Your task to perform on an android device: Clear all items from cart on walmart. Search for "razer blackwidow" on walmart, select the first entry, add it to the cart, then select checkout. Image 0: 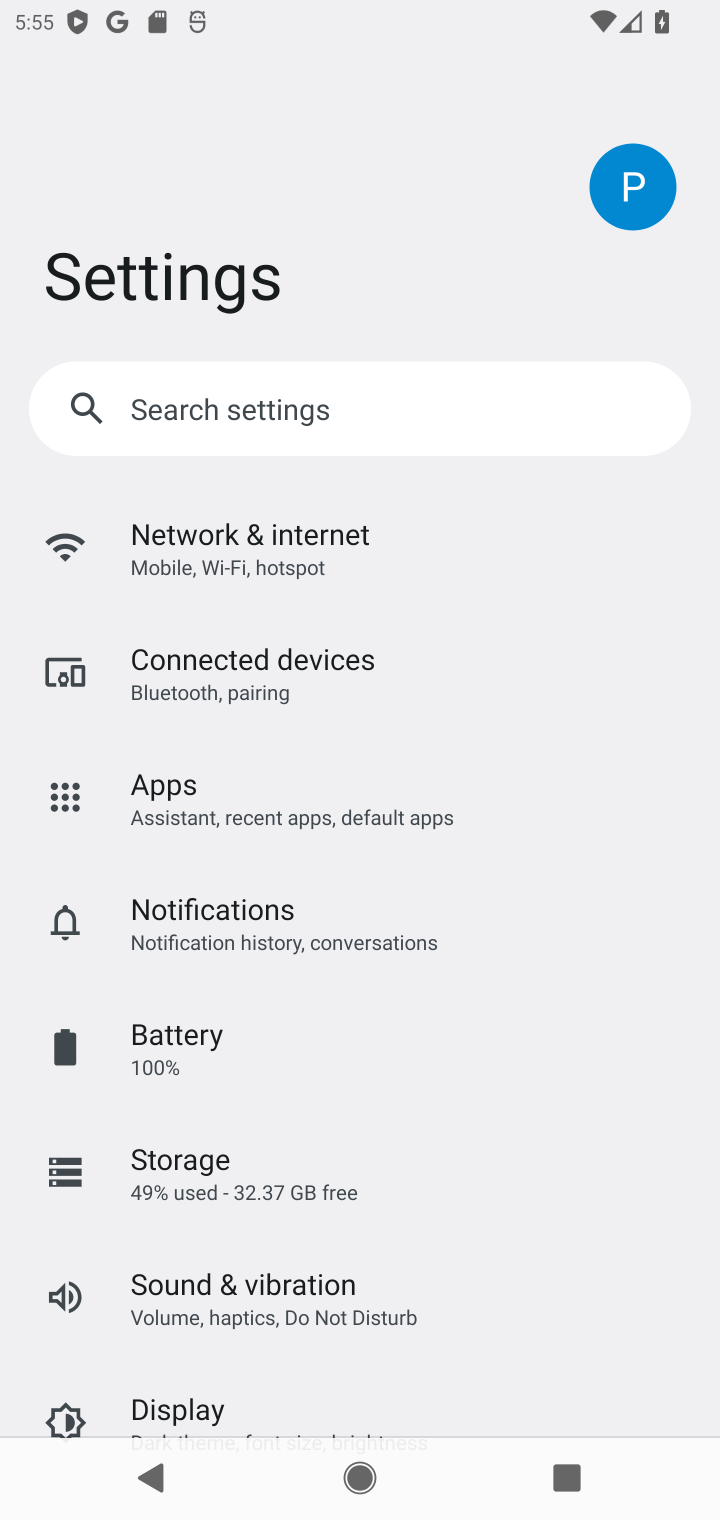
Step 0: press home button
Your task to perform on an android device: Clear all items from cart on walmart. Search for "razer blackwidow" on walmart, select the first entry, add it to the cart, then select checkout. Image 1: 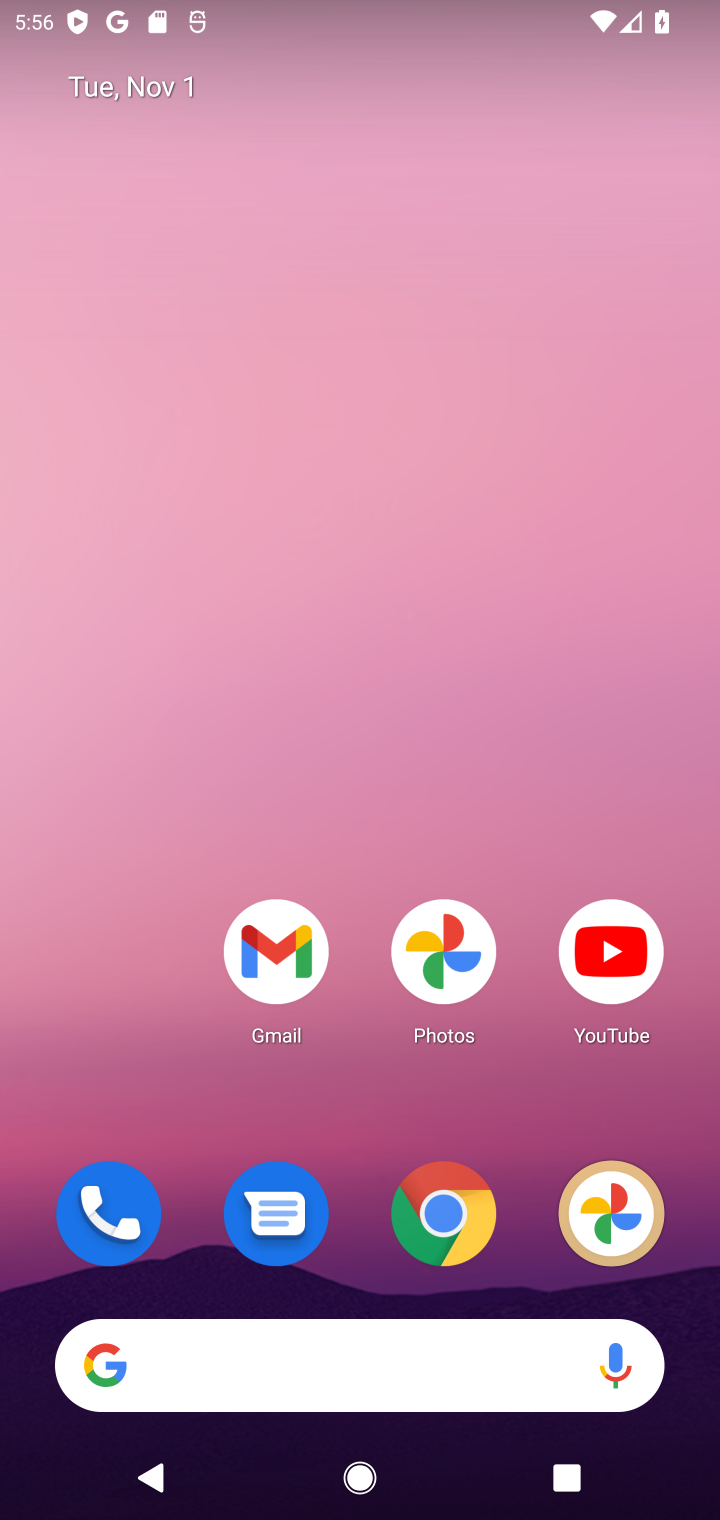
Step 1: click (443, 1227)
Your task to perform on an android device: Clear all items from cart on walmart. Search for "razer blackwidow" on walmart, select the first entry, add it to the cart, then select checkout. Image 2: 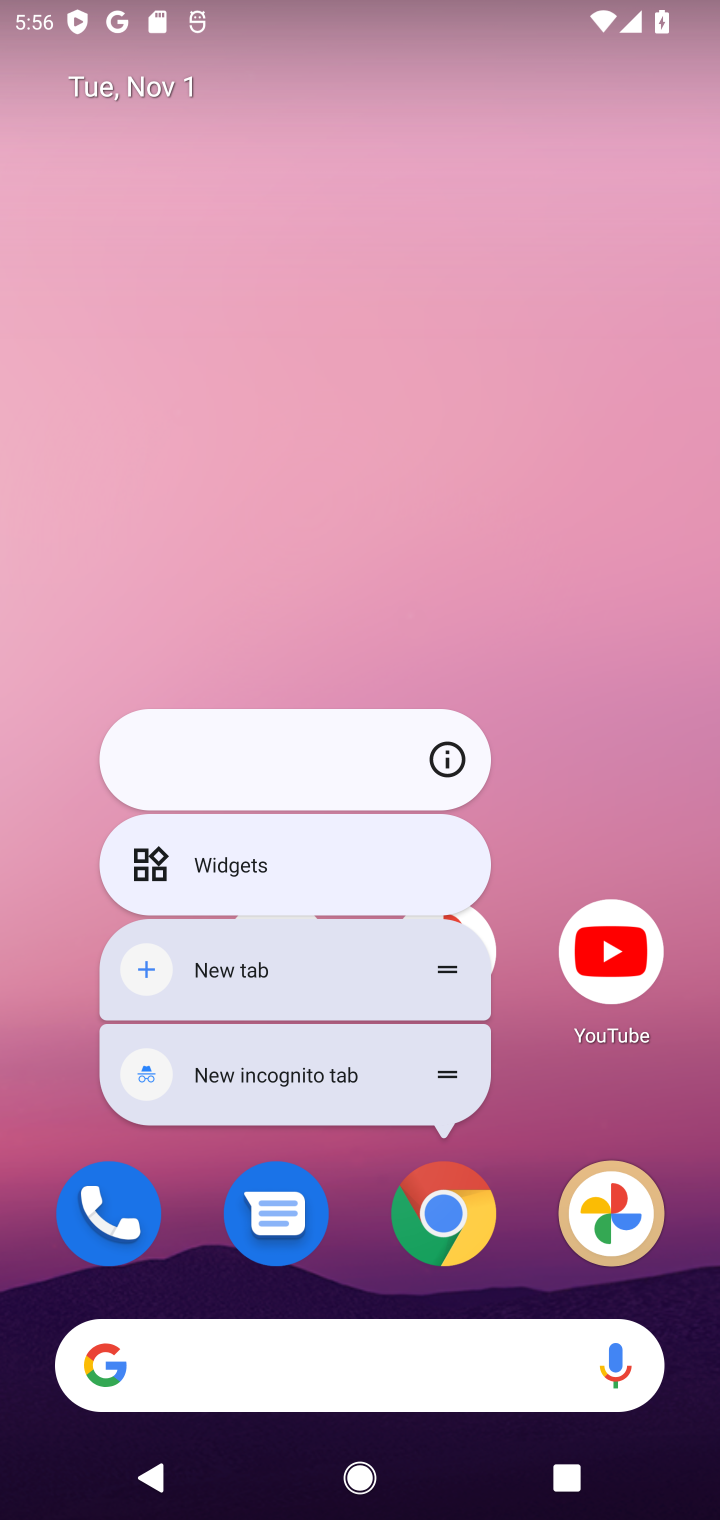
Step 2: click (443, 1235)
Your task to perform on an android device: Clear all items from cart on walmart. Search for "razer blackwidow" on walmart, select the first entry, add it to the cart, then select checkout. Image 3: 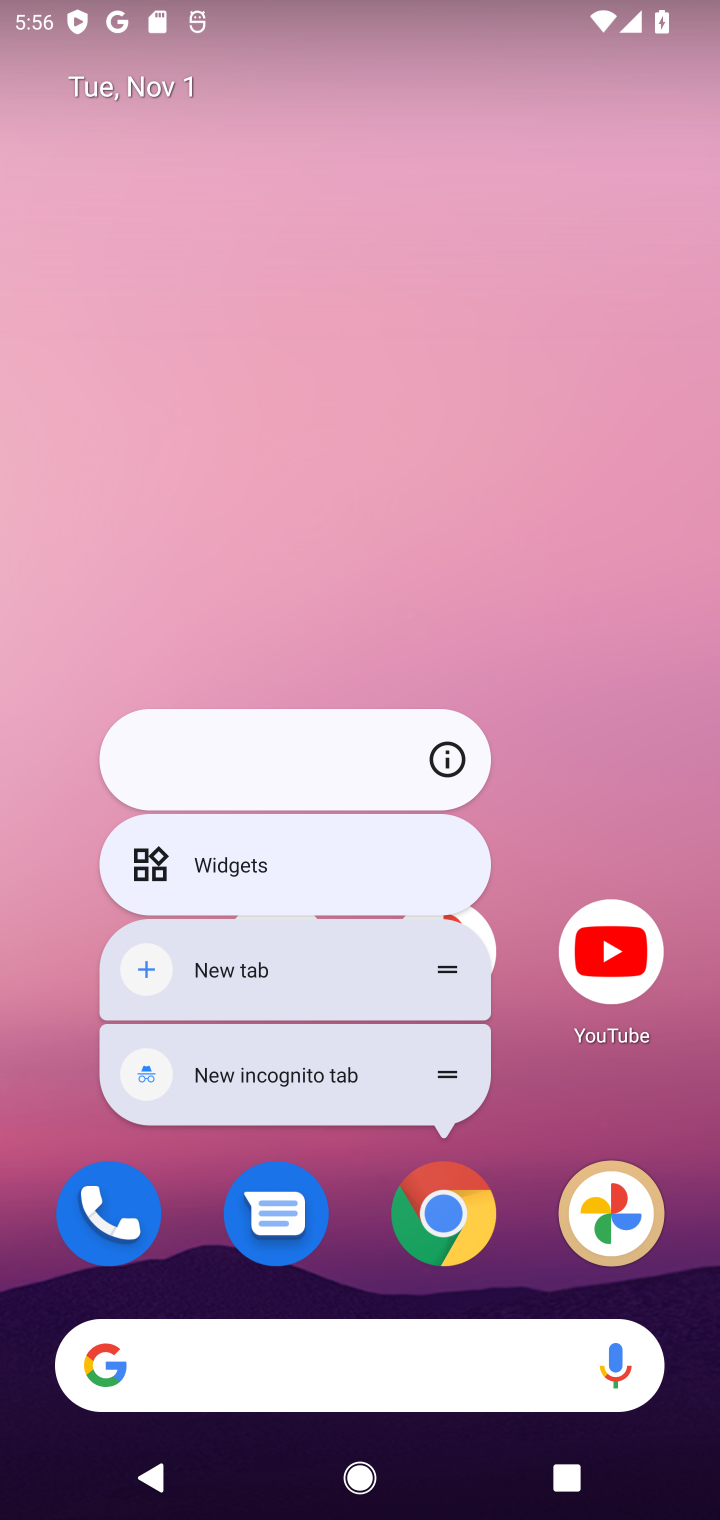
Step 3: click (457, 1220)
Your task to perform on an android device: Clear all items from cart on walmart. Search for "razer blackwidow" on walmart, select the first entry, add it to the cart, then select checkout. Image 4: 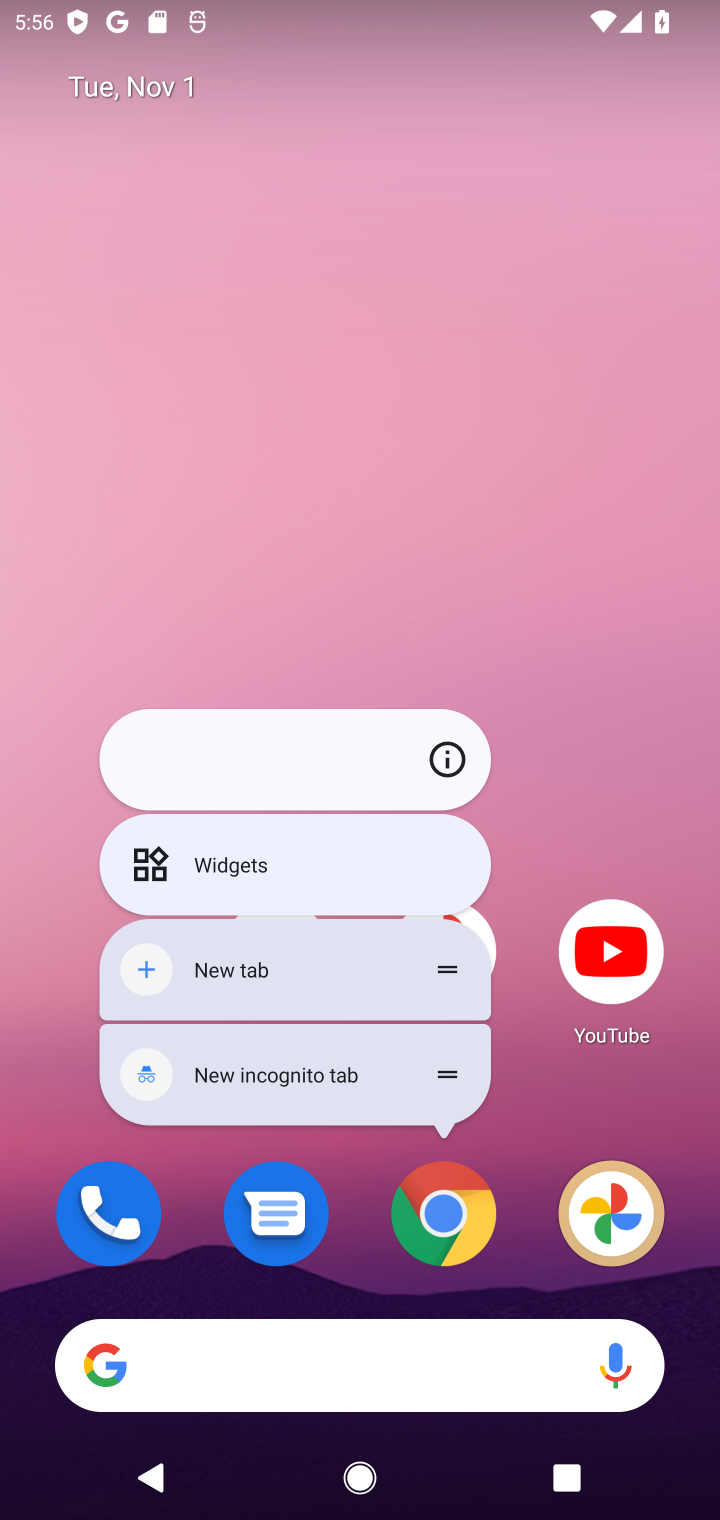
Step 4: click (445, 1211)
Your task to perform on an android device: Clear all items from cart on walmart. Search for "razer blackwidow" on walmart, select the first entry, add it to the cart, then select checkout. Image 5: 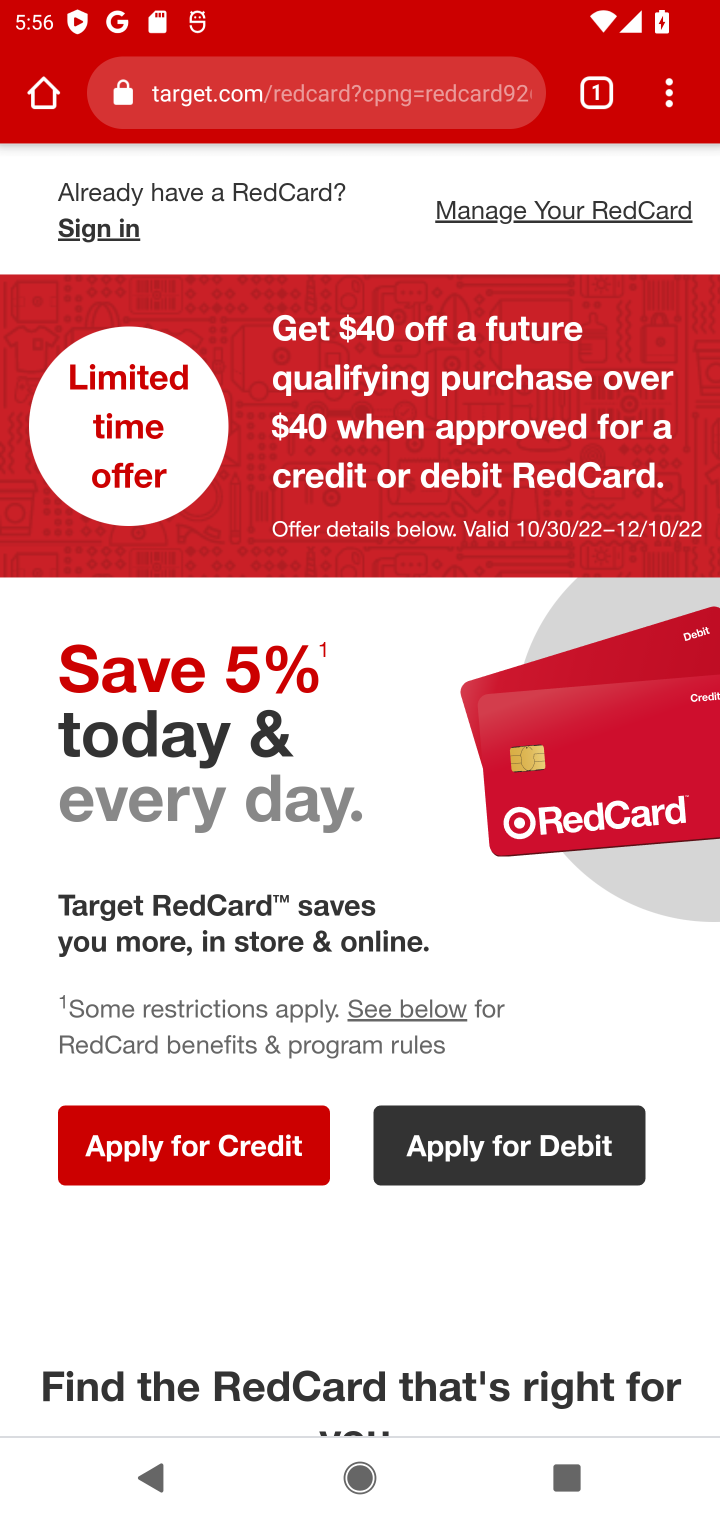
Step 5: click (219, 92)
Your task to perform on an android device: Clear all items from cart on walmart. Search for "razer blackwidow" on walmart, select the first entry, add it to the cart, then select checkout. Image 6: 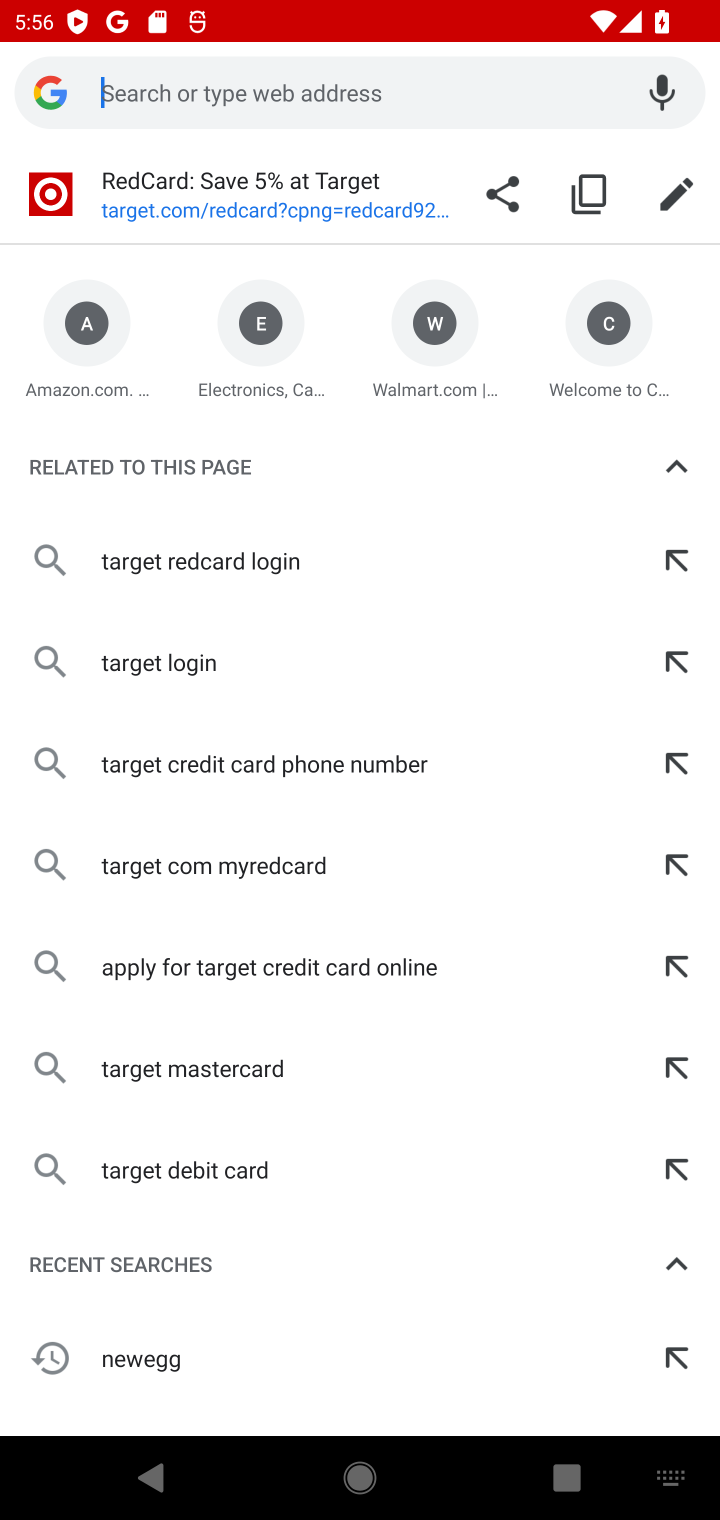
Step 6: type " walmart"
Your task to perform on an android device: Clear all items from cart on walmart. Search for "razer blackwidow" on walmart, select the first entry, add it to the cart, then select checkout. Image 7: 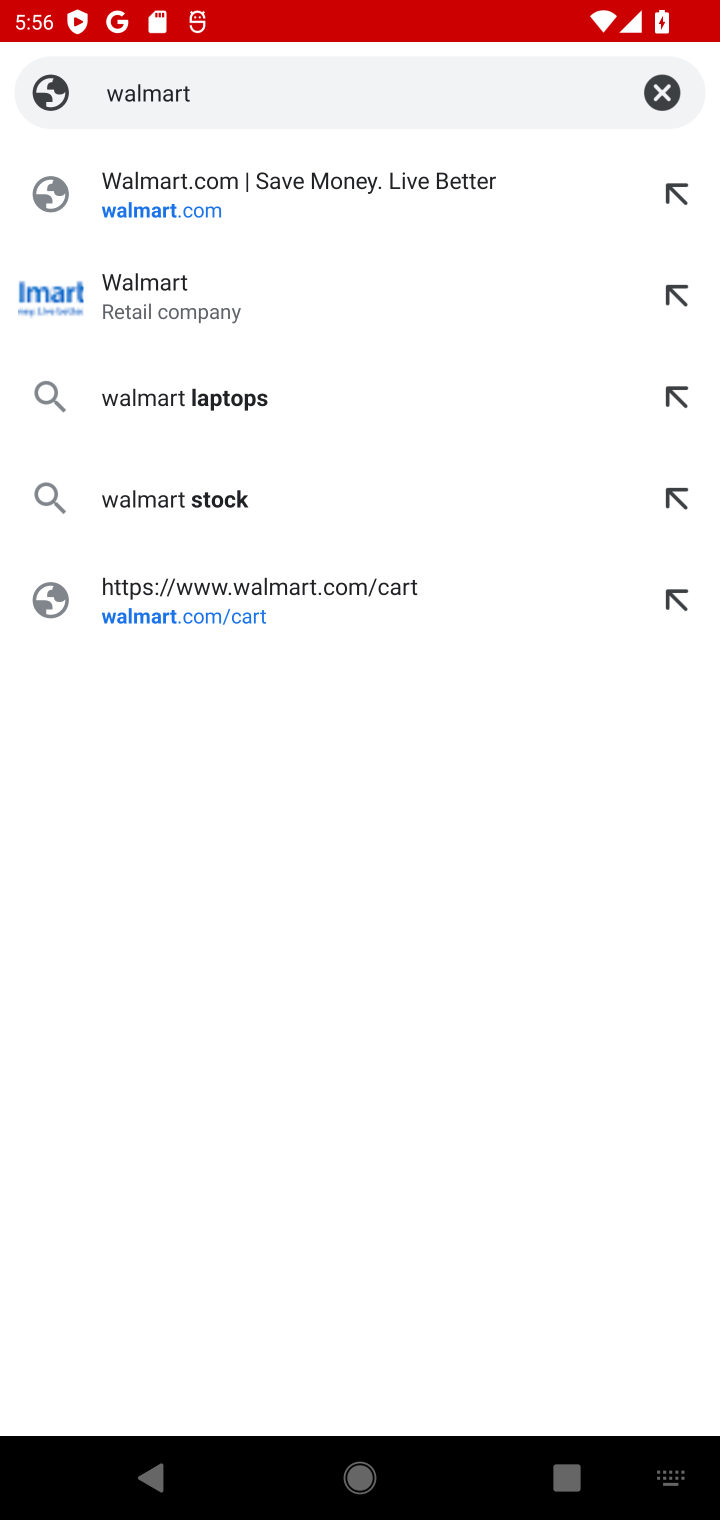
Step 7: click (179, 206)
Your task to perform on an android device: Clear all items from cart on walmart. Search for "razer blackwidow" on walmart, select the first entry, add it to the cart, then select checkout. Image 8: 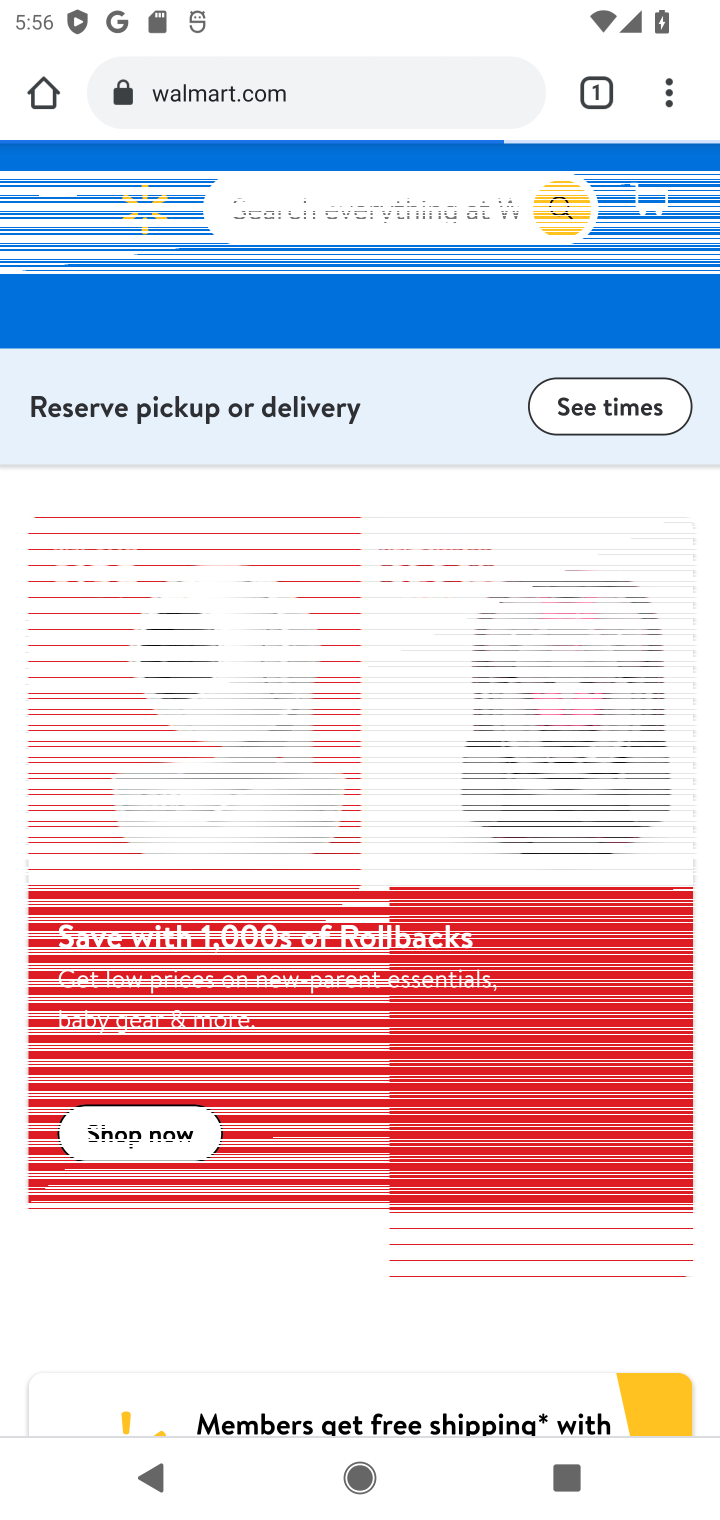
Step 8: click (667, 182)
Your task to perform on an android device: Clear all items from cart on walmart. Search for "razer blackwidow" on walmart, select the first entry, add it to the cart, then select checkout. Image 9: 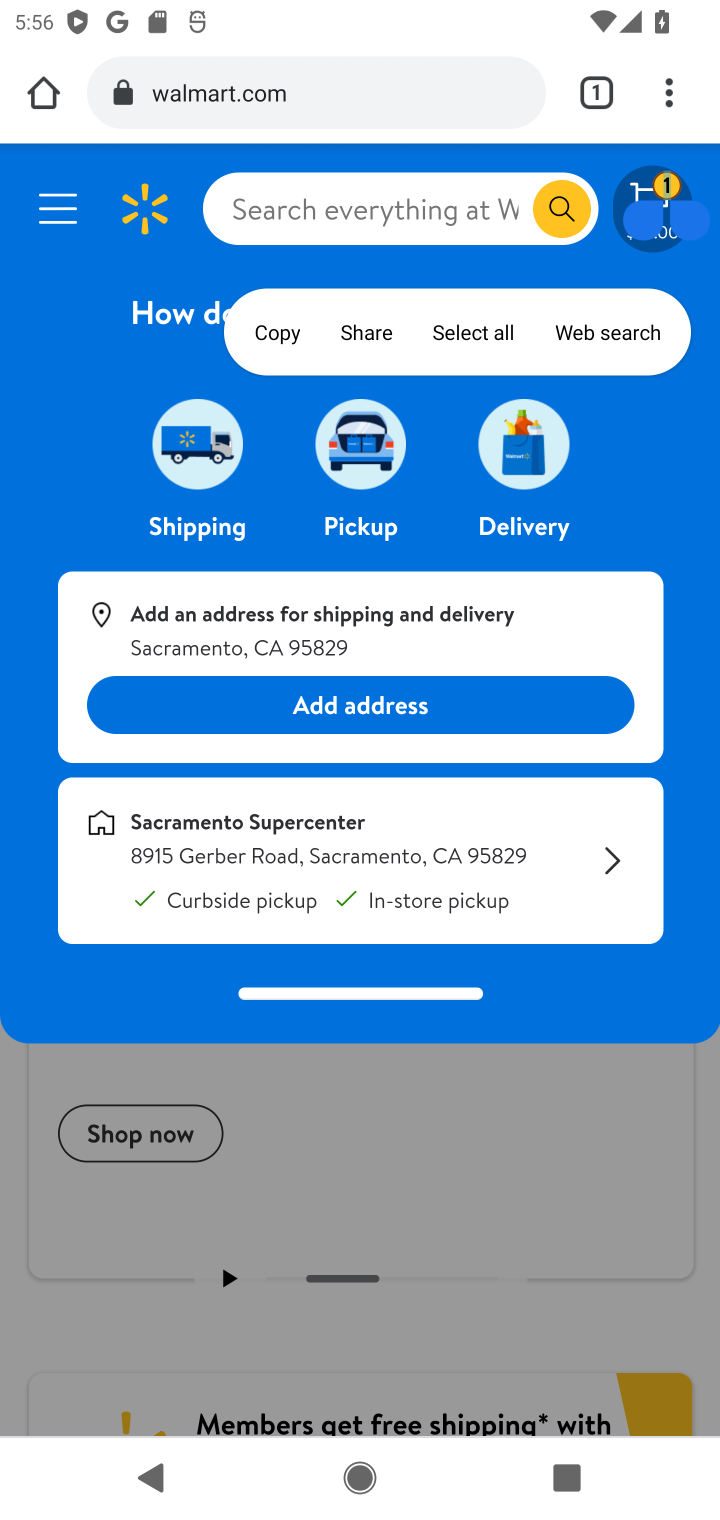
Step 9: click (635, 211)
Your task to perform on an android device: Clear all items from cart on walmart. Search for "razer blackwidow" on walmart, select the first entry, add it to the cart, then select checkout. Image 10: 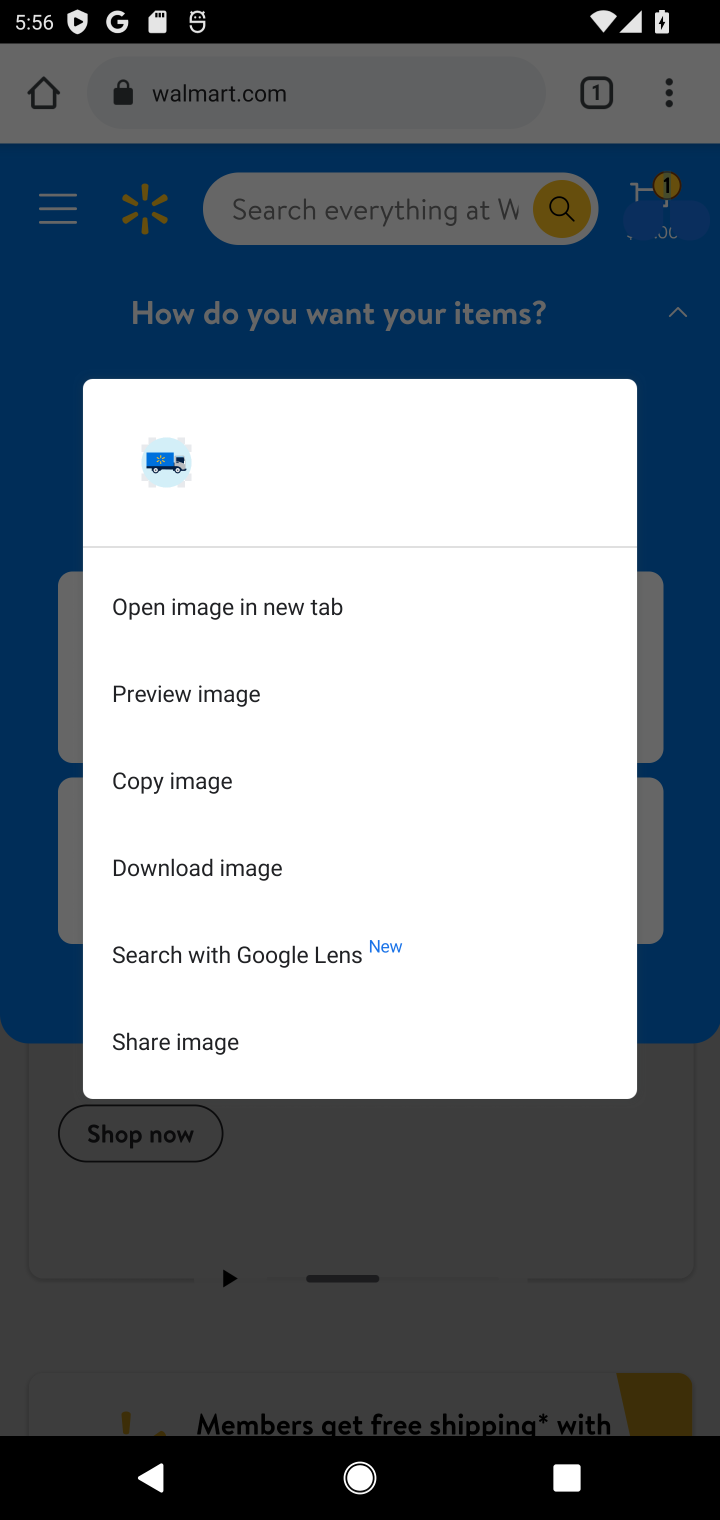
Step 10: click (641, 187)
Your task to perform on an android device: Clear all items from cart on walmart. Search for "razer blackwidow" on walmart, select the first entry, add it to the cart, then select checkout. Image 11: 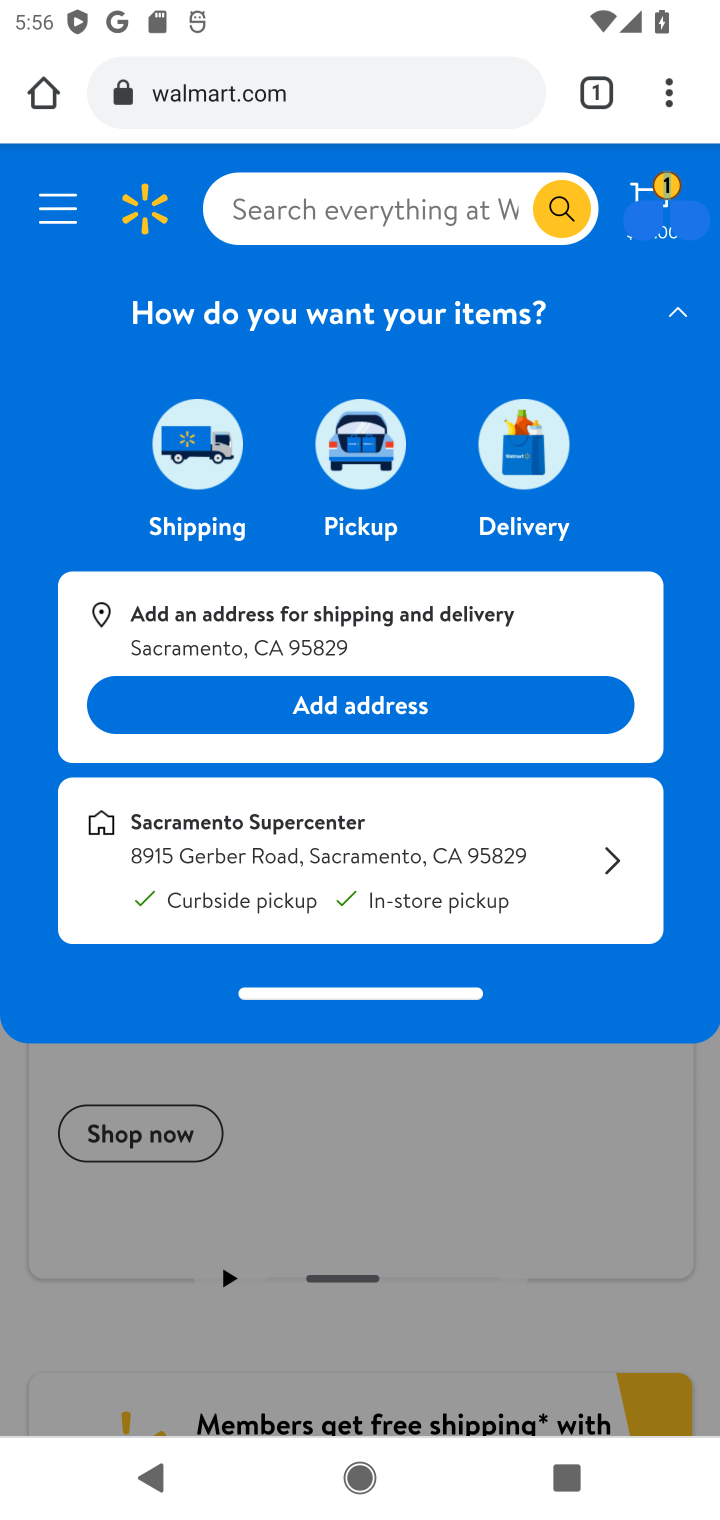
Step 11: click (647, 203)
Your task to perform on an android device: Clear all items from cart on walmart. Search for "razer blackwidow" on walmart, select the first entry, add it to the cart, then select checkout. Image 12: 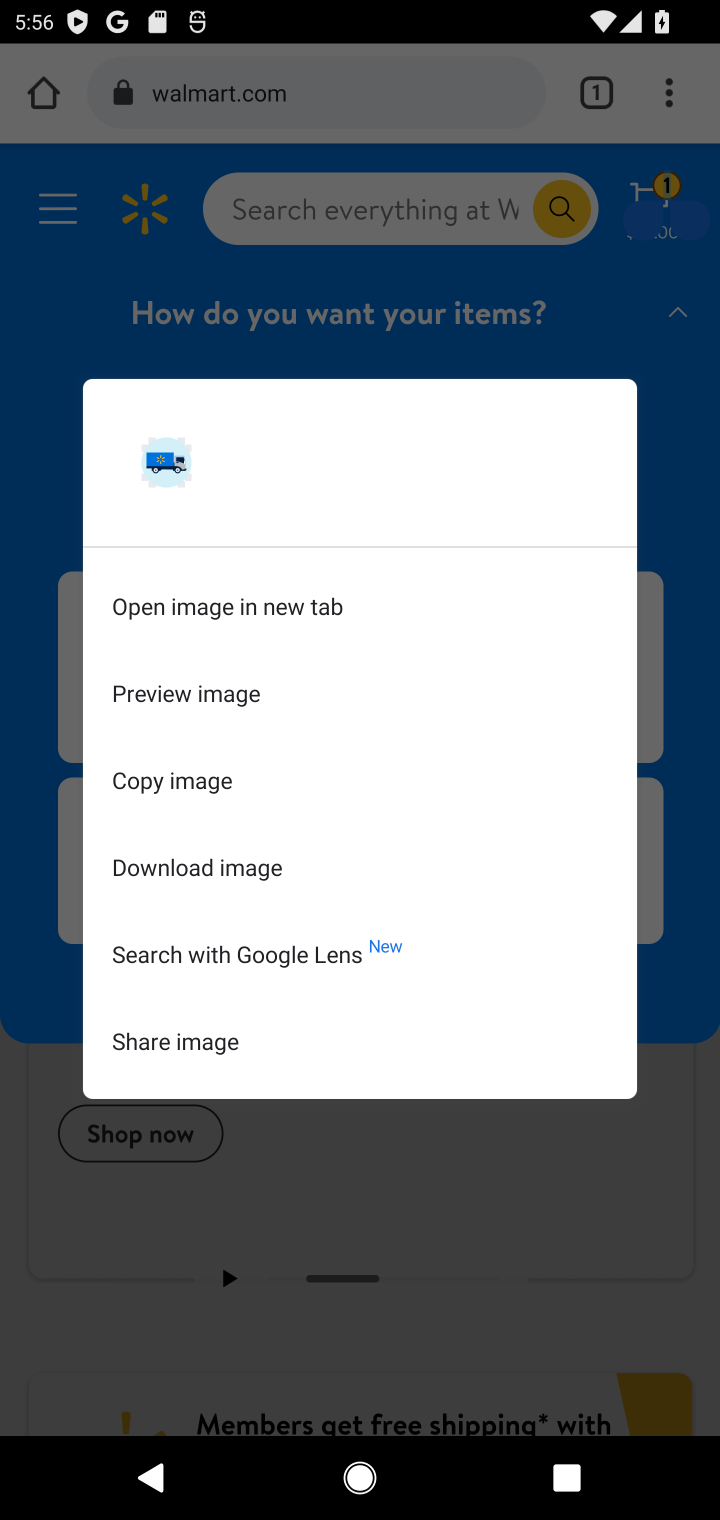
Step 12: click (641, 241)
Your task to perform on an android device: Clear all items from cart on walmart. Search for "razer blackwidow" on walmart, select the first entry, add it to the cart, then select checkout. Image 13: 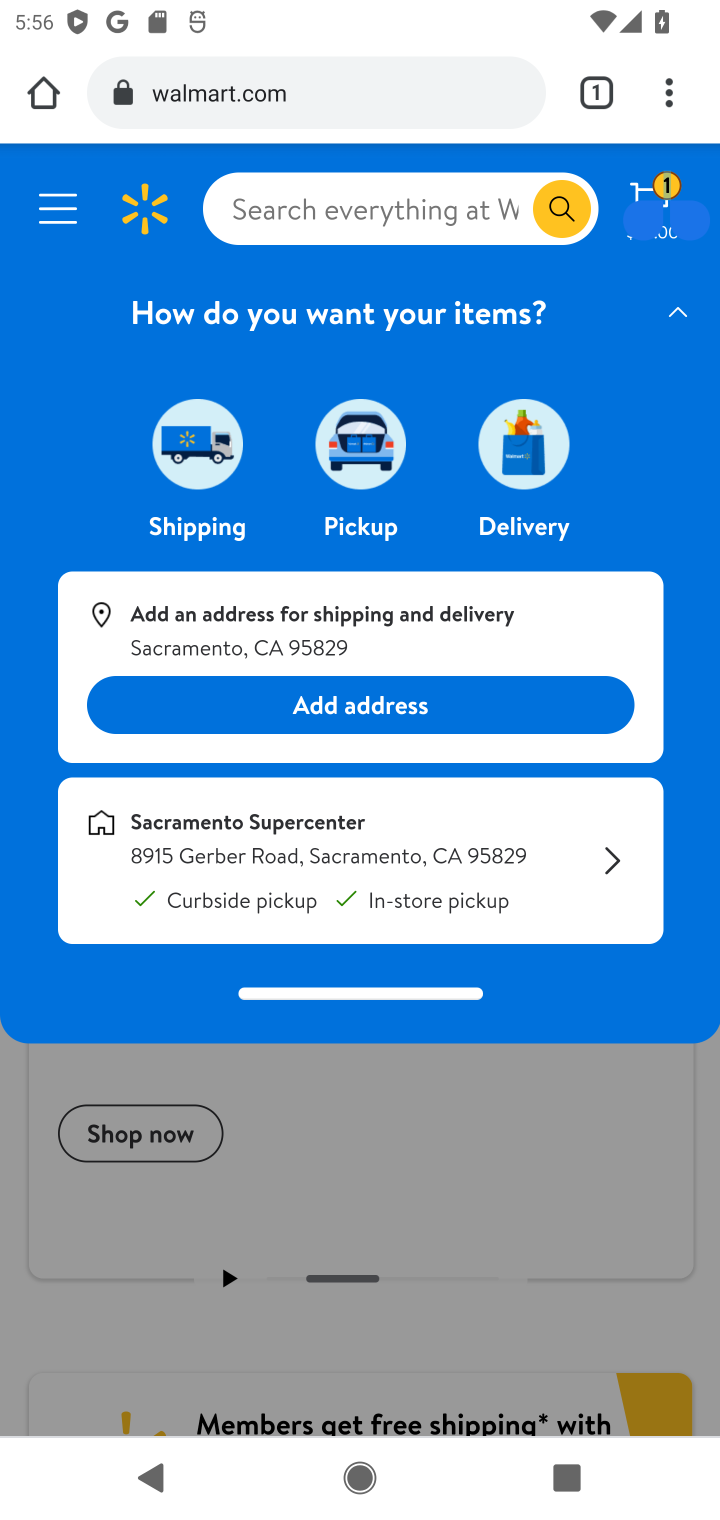
Step 13: click (516, 1274)
Your task to perform on an android device: Clear all items from cart on walmart. Search for "razer blackwidow" on walmart, select the first entry, add it to the cart, then select checkout. Image 14: 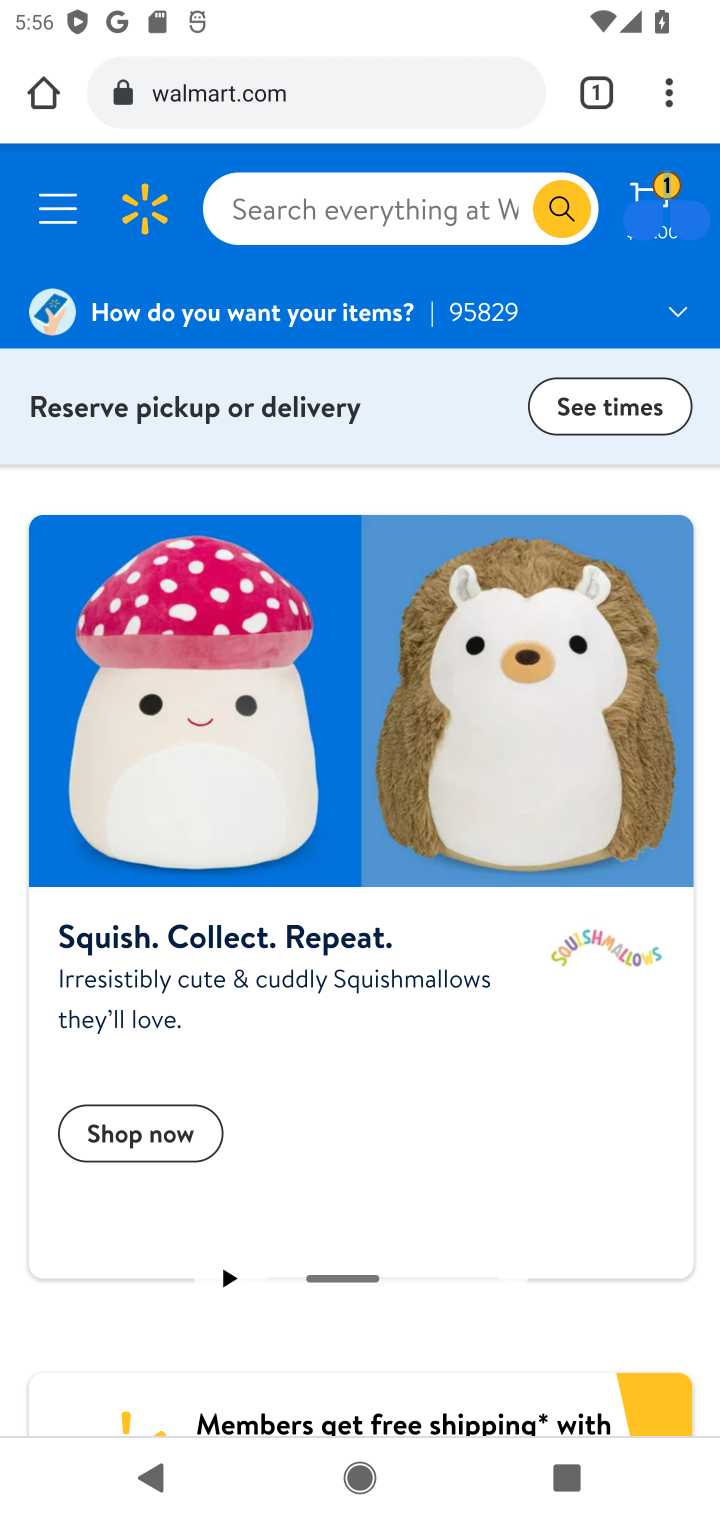
Step 14: click (659, 181)
Your task to perform on an android device: Clear all items from cart on walmart. Search for "razer blackwidow" on walmart, select the first entry, add it to the cart, then select checkout. Image 15: 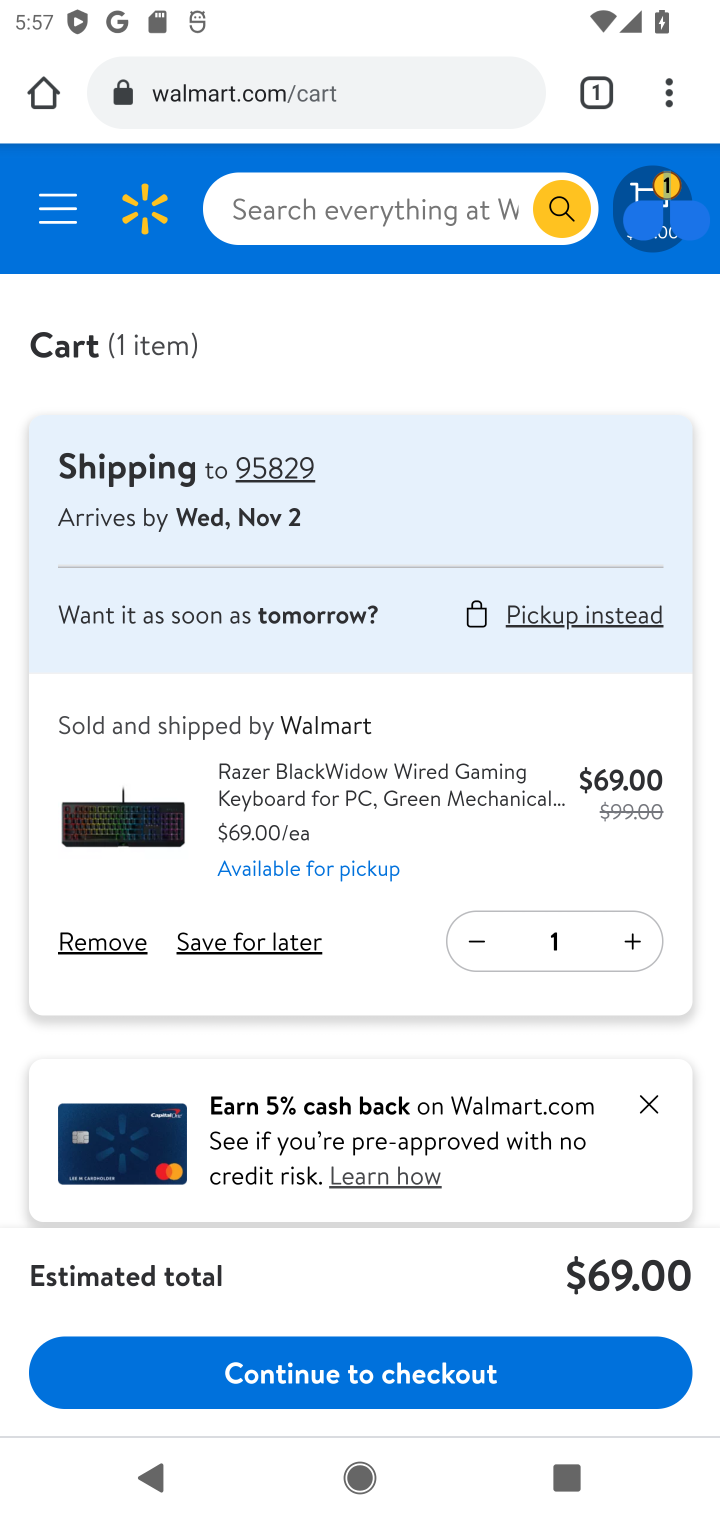
Step 15: click (469, 932)
Your task to perform on an android device: Clear all items from cart on walmart. Search for "razer blackwidow" on walmart, select the first entry, add it to the cart, then select checkout. Image 16: 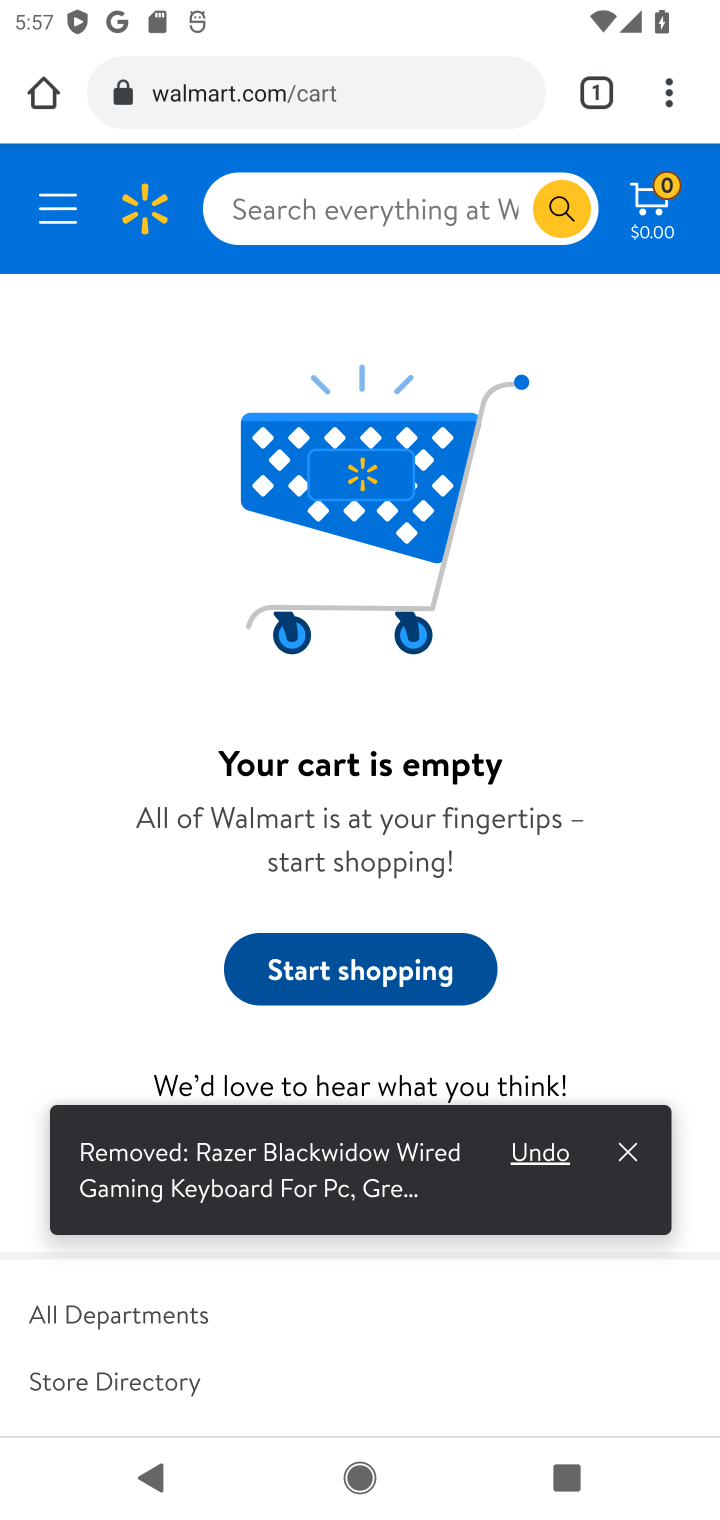
Step 16: click (616, 1159)
Your task to perform on an android device: Clear all items from cart on walmart. Search for "razer blackwidow" on walmart, select the first entry, add it to the cart, then select checkout. Image 17: 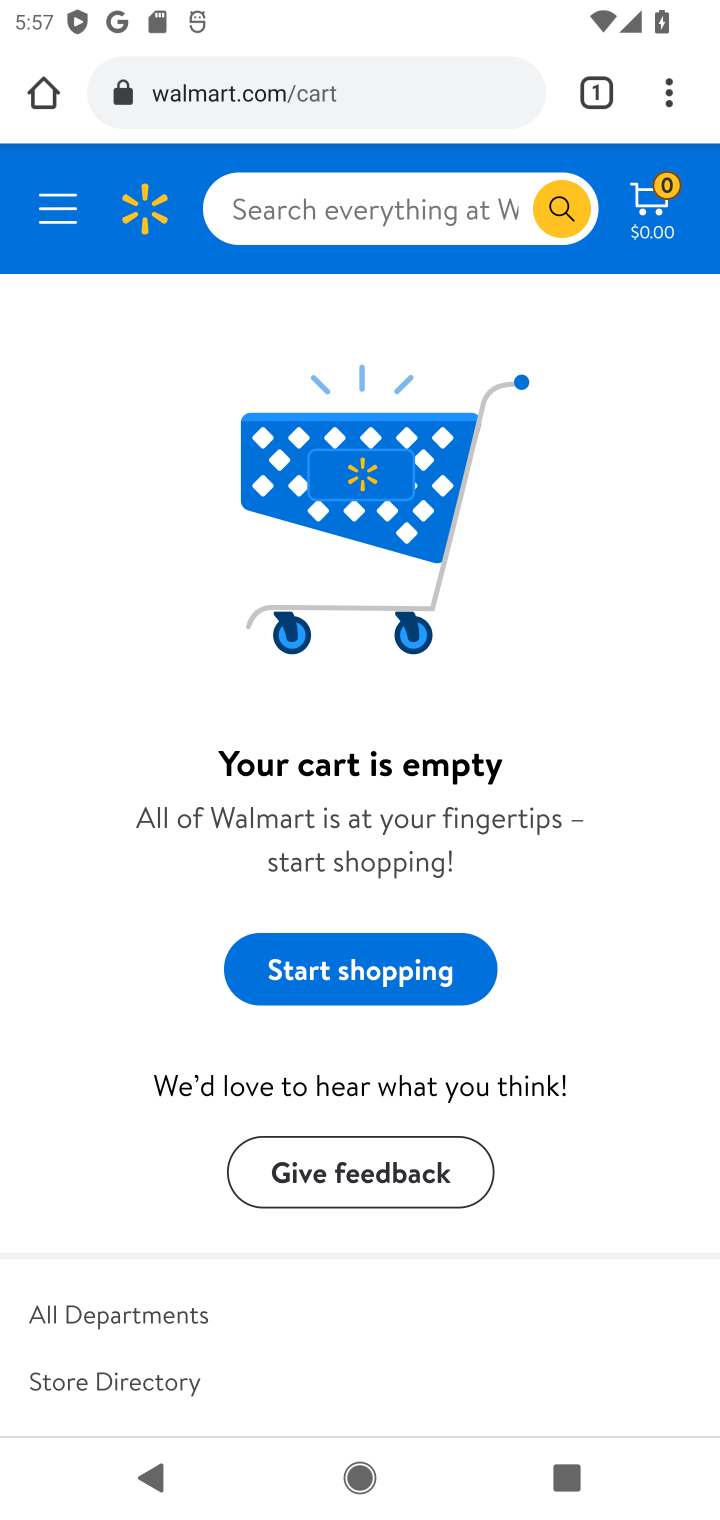
Step 17: click (358, 220)
Your task to perform on an android device: Clear all items from cart on walmart. Search for "razer blackwidow" on walmart, select the first entry, add it to the cart, then select checkout. Image 18: 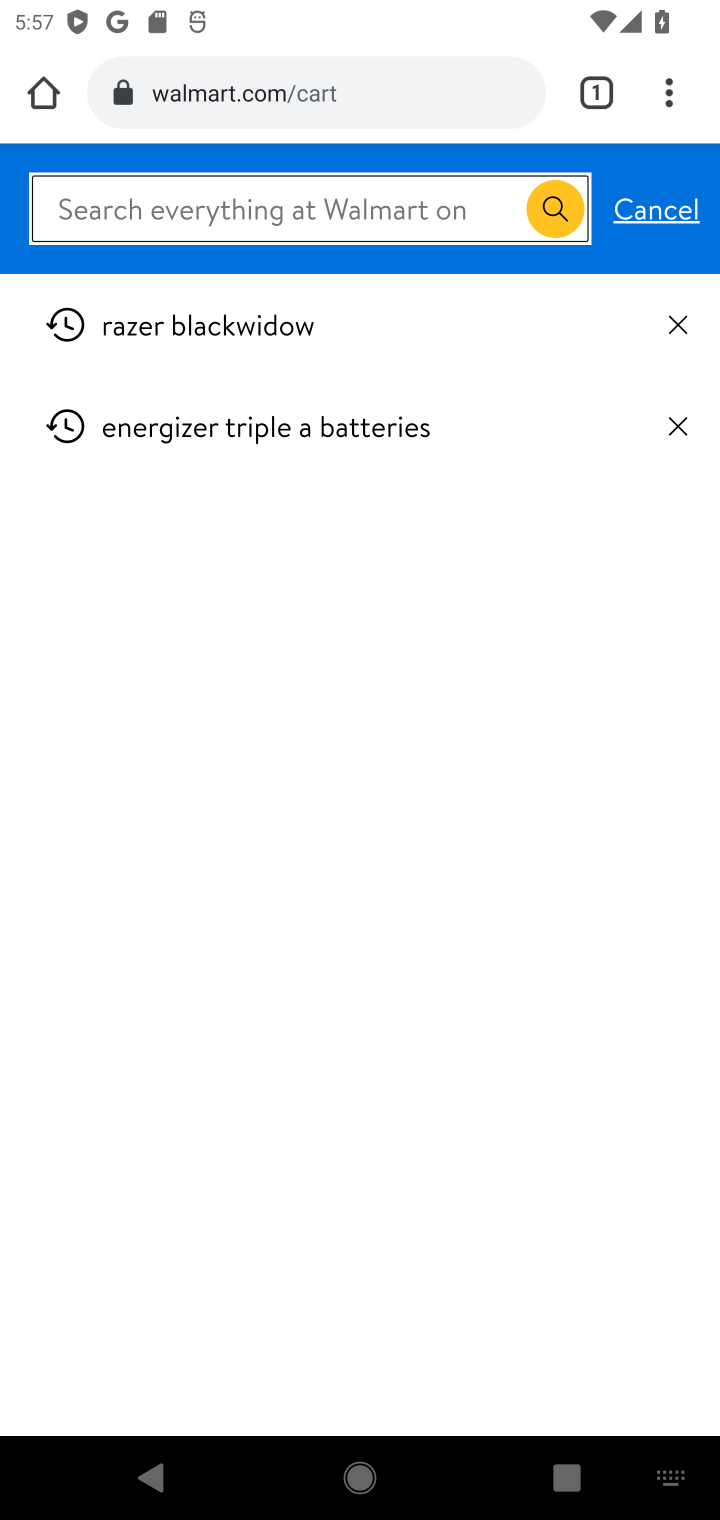
Step 18: type "razer blackwidow"
Your task to perform on an android device: Clear all items from cart on walmart. Search for "razer blackwidow" on walmart, select the first entry, add it to the cart, then select checkout. Image 19: 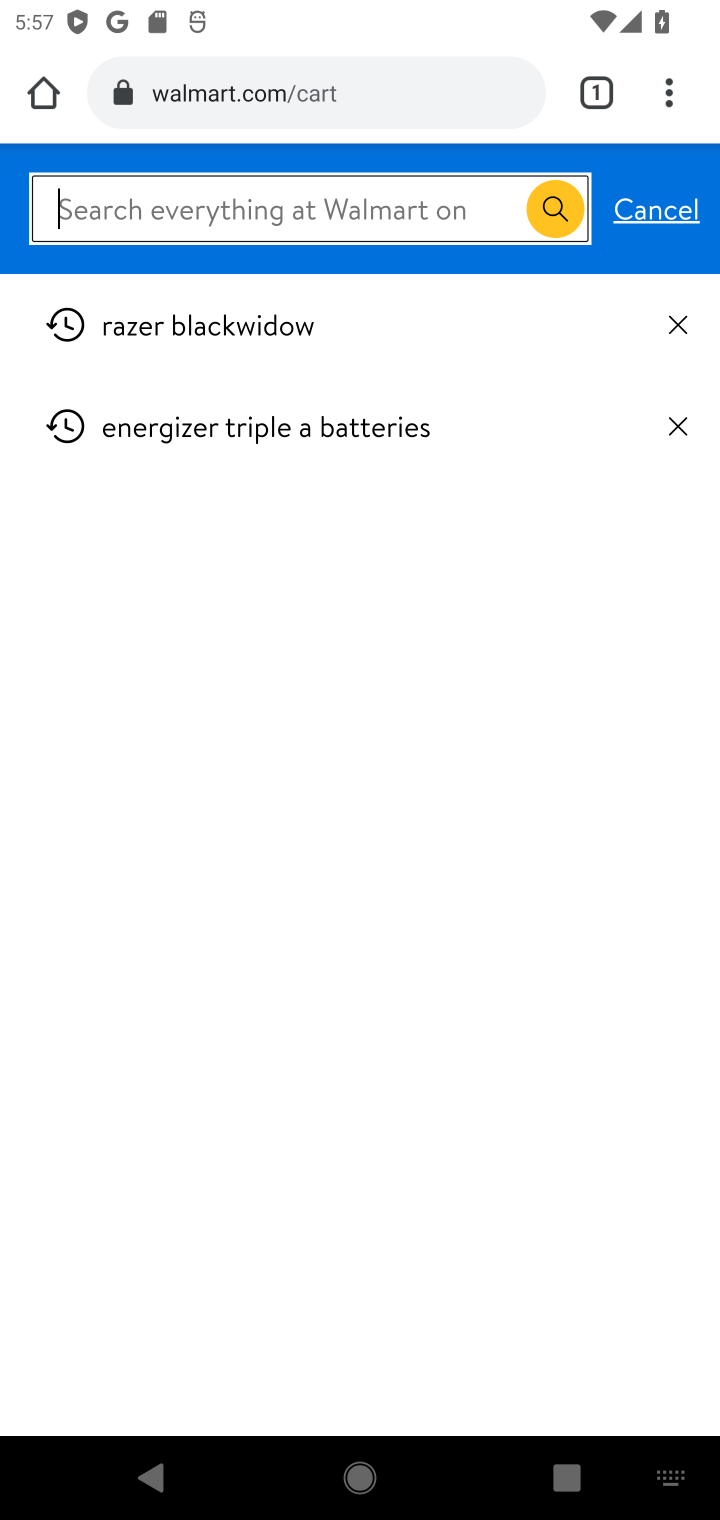
Step 19: type ""
Your task to perform on an android device: Clear all items from cart on walmart. Search for "razer blackwidow" on walmart, select the first entry, add it to the cart, then select checkout. Image 20: 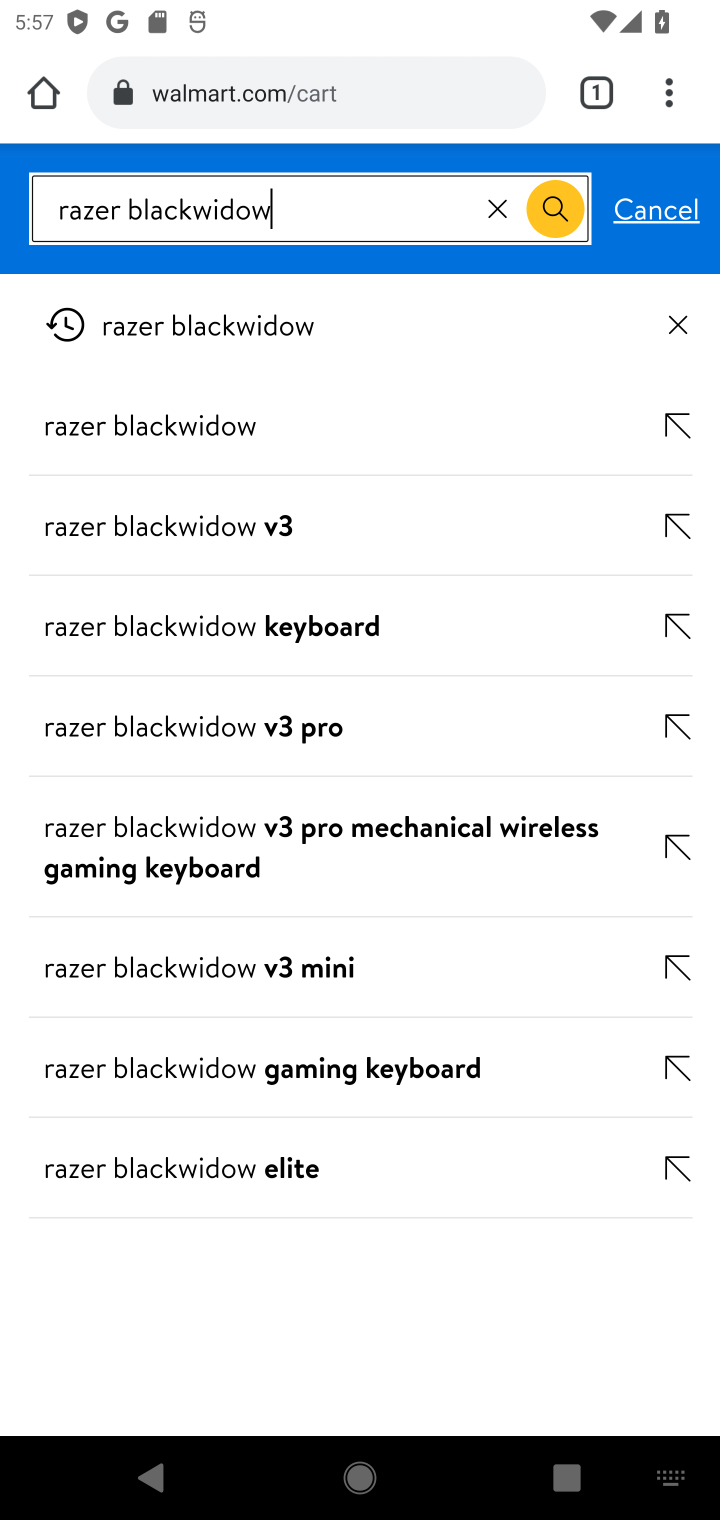
Step 20: click (204, 374)
Your task to perform on an android device: Clear all items from cart on walmart. Search for "razer blackwidow" on walmart, select the first entry, add it to the cart, then select checkout. Image 21: 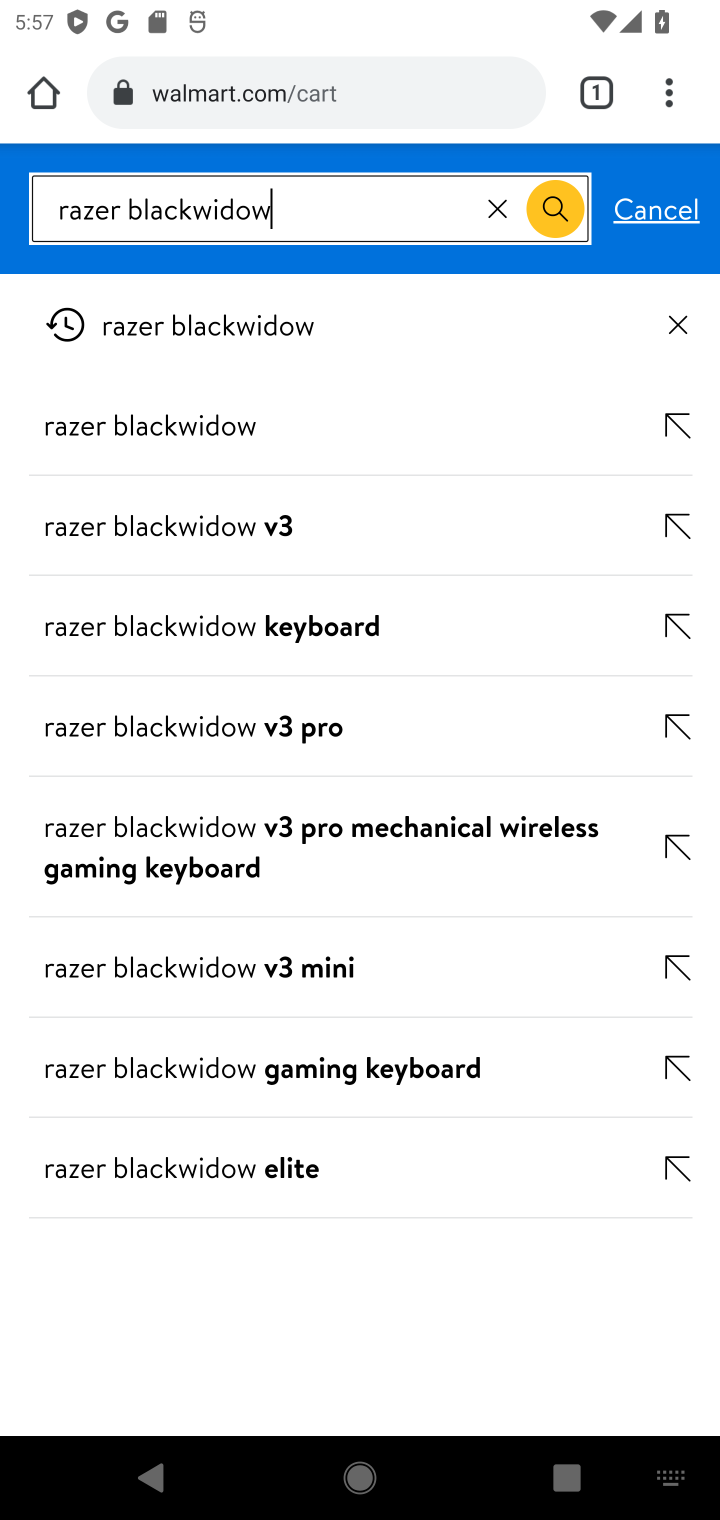
Step 21: click (206, 348)
Your task to perform on an android device: Clear all items from cart on walmart. Search for "razer blackwidow" on walmart, select the first entry, add it to the cart, then select checkout. Image 22: 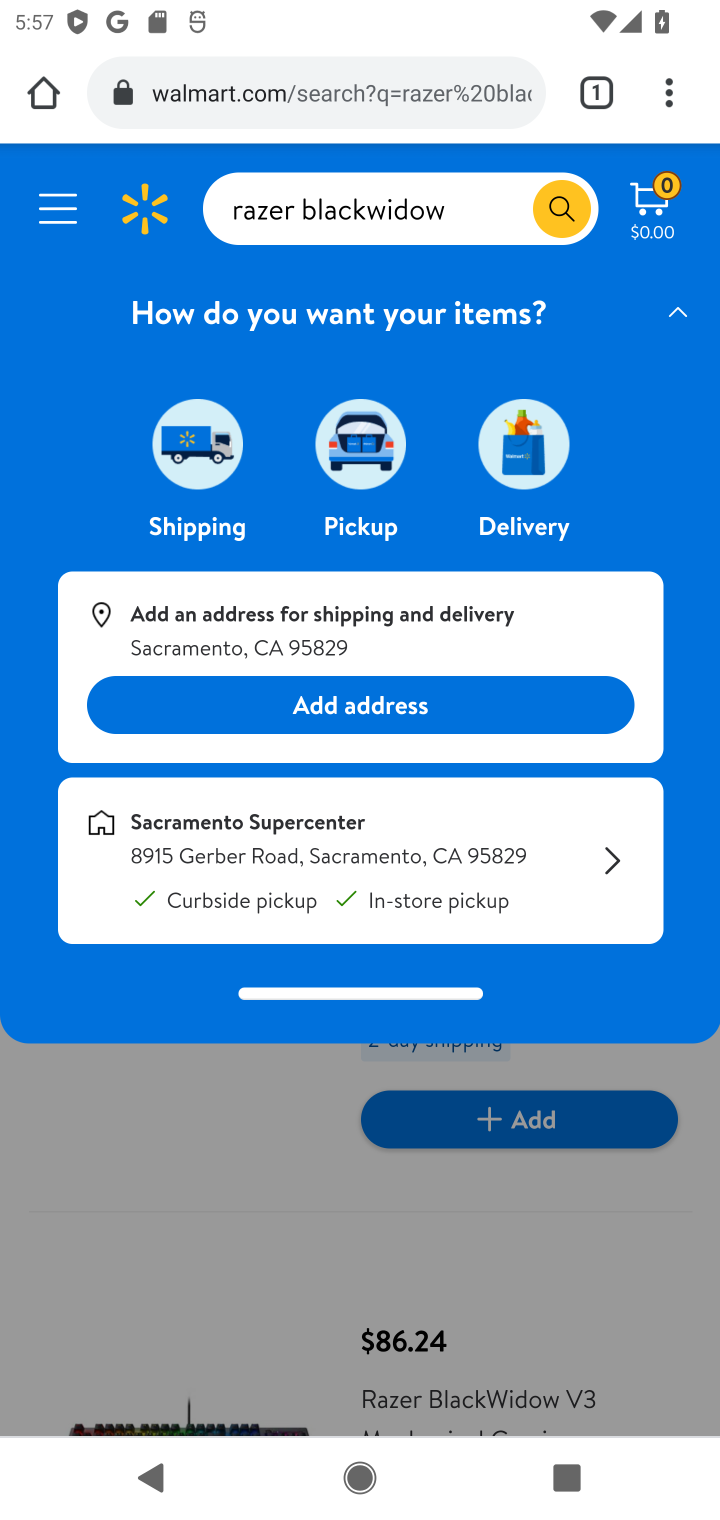
Step 22: click (570, 215)
Your task to perform on an android device: Clear all items from cart on walmart. Search for "razer blackwidow" on walmart, select the first entry, add it to the cart, then select checkout. Image 23: 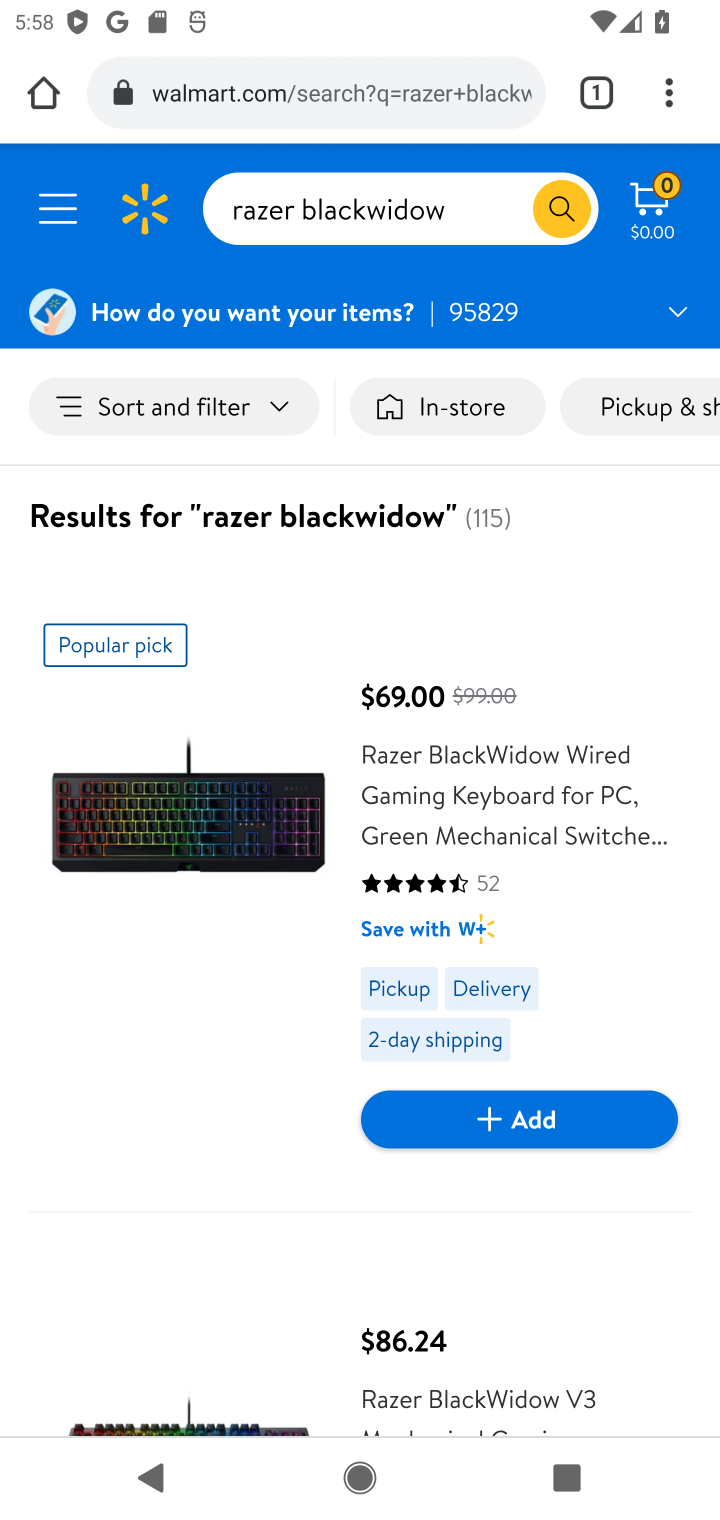
Step 23: click (436, 789)
Your task to perform on an android device: Clear all items from cart on walmart. Search for "razer blackwidow" on walmart, select the first entry, add it to the cart, then select checkout. Image 24: 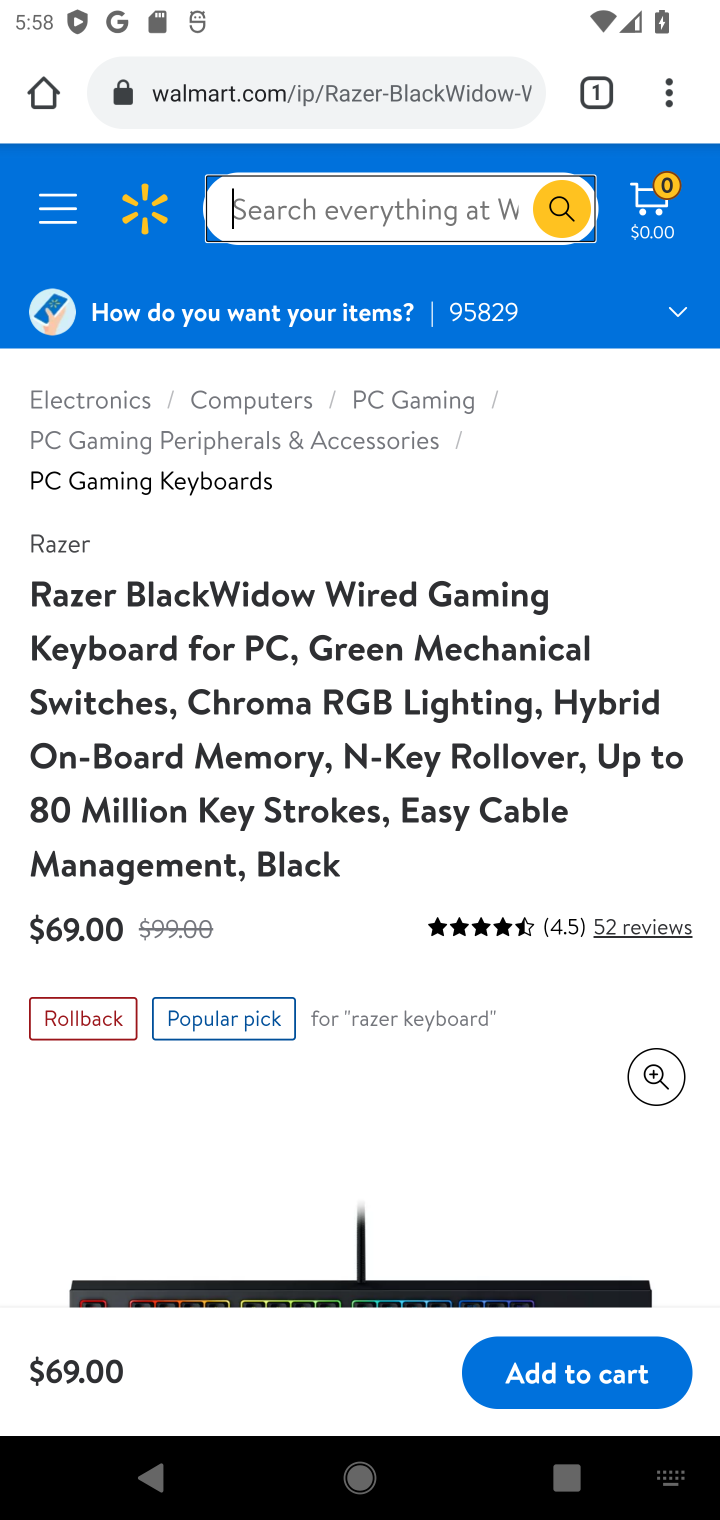
Step 24: click (436, 789)
Your task to perform on an android device: Clear all items from cart on walmart. Search for "razer blackwidow" on walmart, select the first entry, add it to the cart, then select checkout. Image 25: 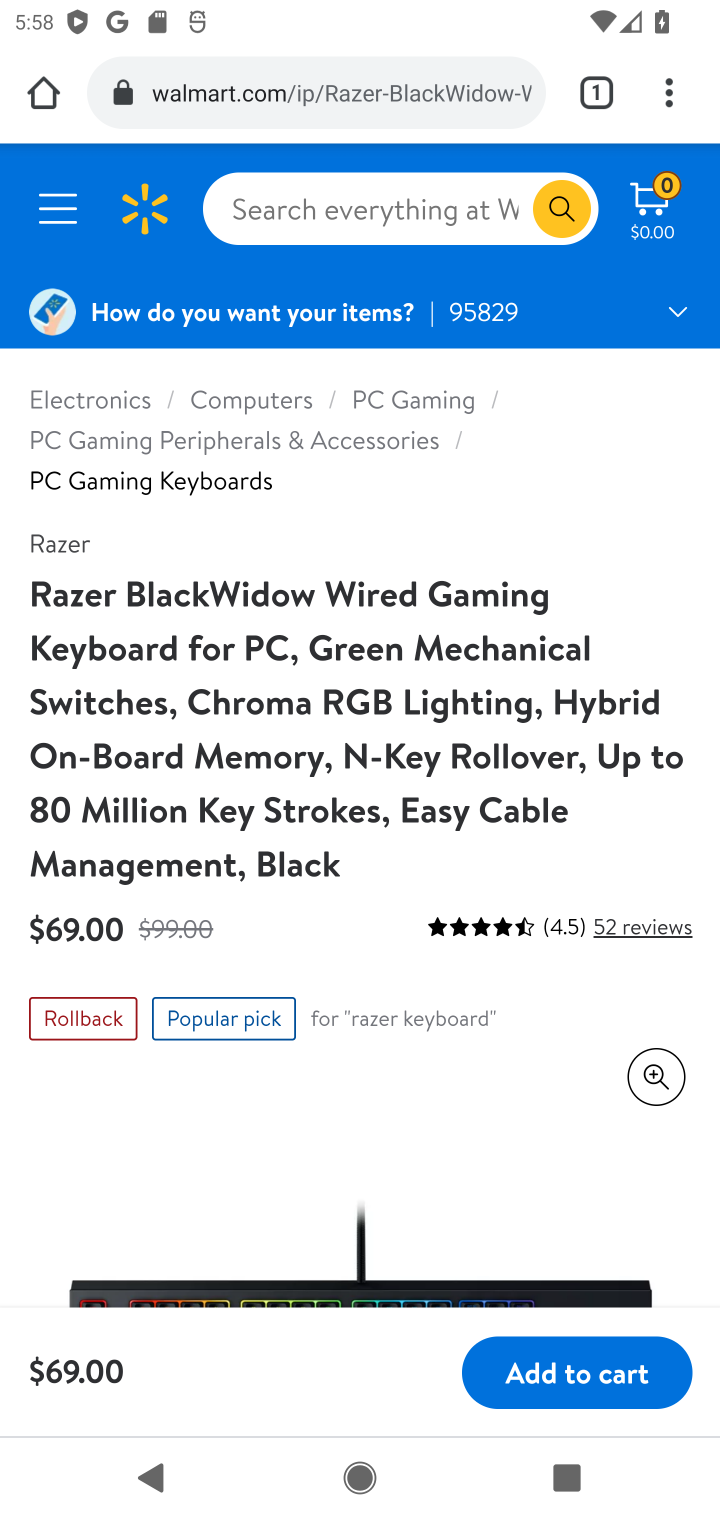
Step 25: drag from (405, 984) to (473, 389)
Your task to perform on an android device: Clear all items from cart on walmart. Search for "razer blackwidow" on walmart, select the first entry, add it to the cart, then select checkout. Image 26: 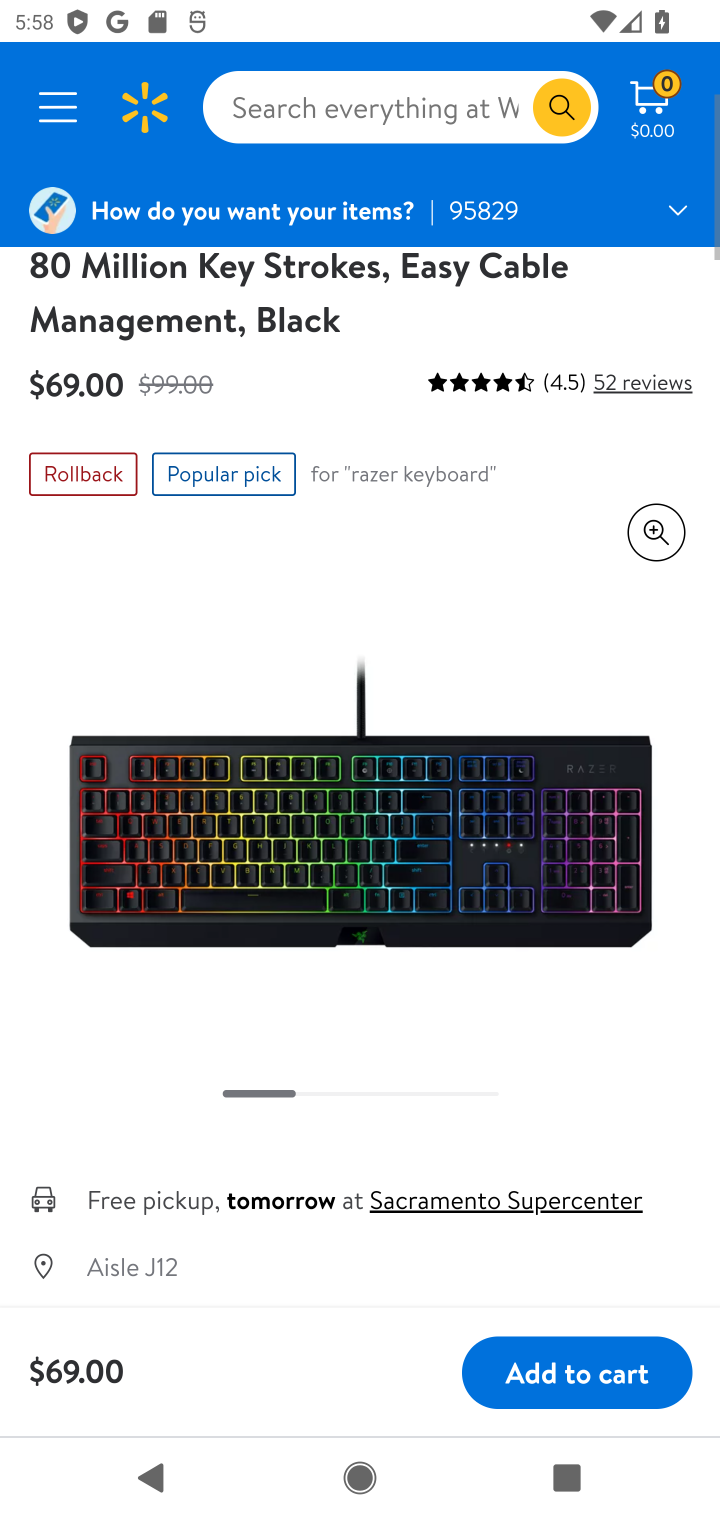
Step 26: drag from (470, 791) to (471, 467)
Your task to perform on an android device: Clear all items from cart on walmart. Search for "razer blackwidow" on walmart, select the first entry, add it to the cart, then select checkout. Image 27: 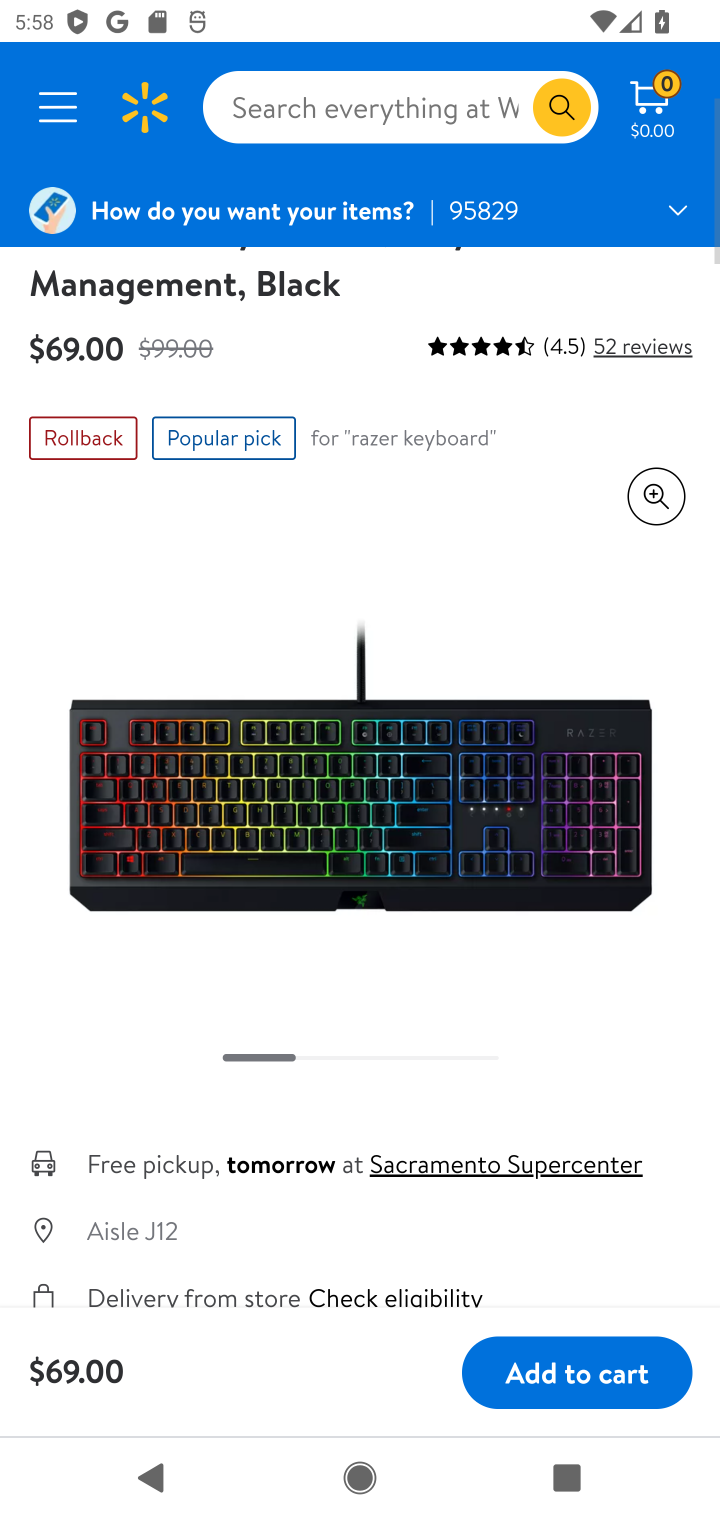
Step 27: drag from (436, 846) to (459, 425)
Your task to perform on an android device: Clear all items from cart on walmart. Search for "razer blackwidow" on walmart, select the first entry, add it to the cart, then select checkout. Image 28: 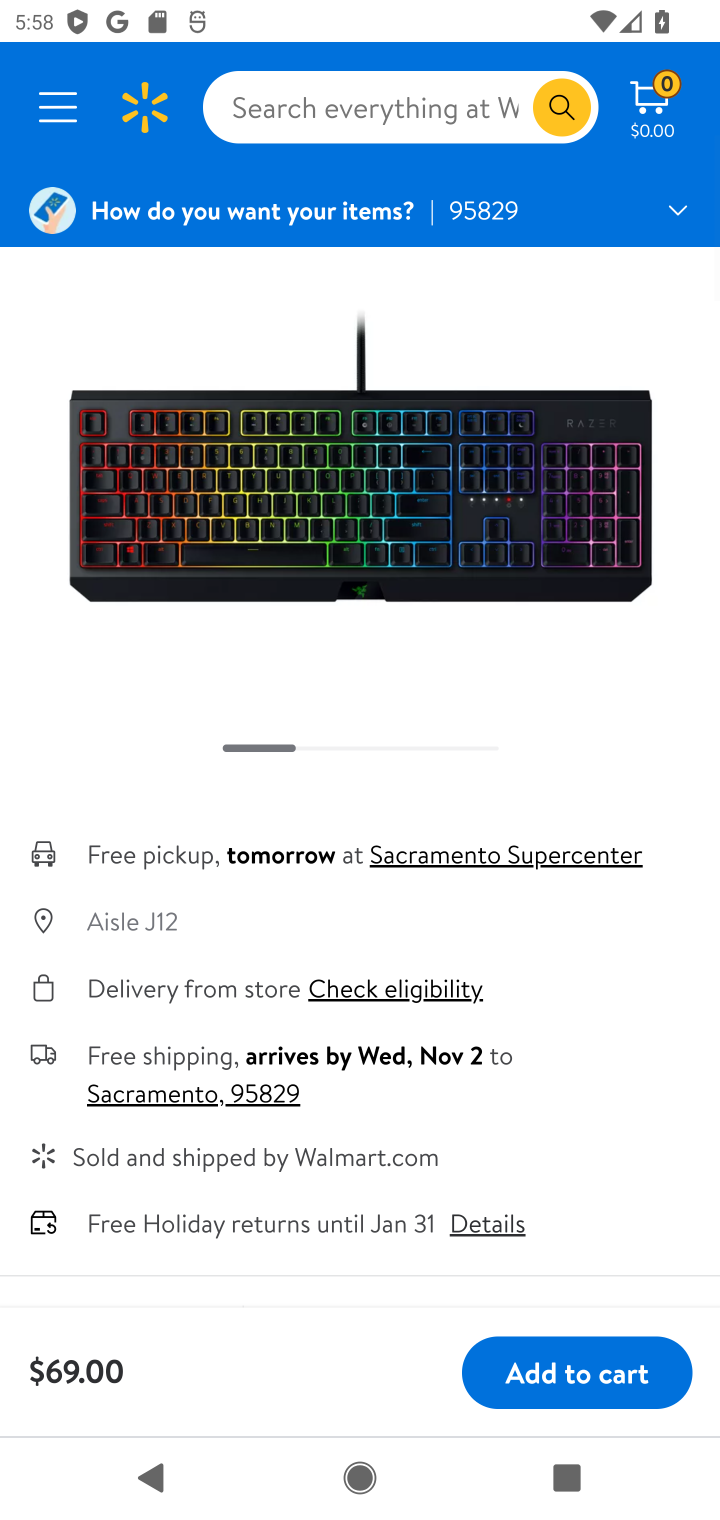
Step 28: click (554, 1354)
Your task to perform on an android device: Clear all items from cart on walmart. Search for "razer blackwidow" on walmart, select the first entry, add it to the cart, then select checkout. Image 29: 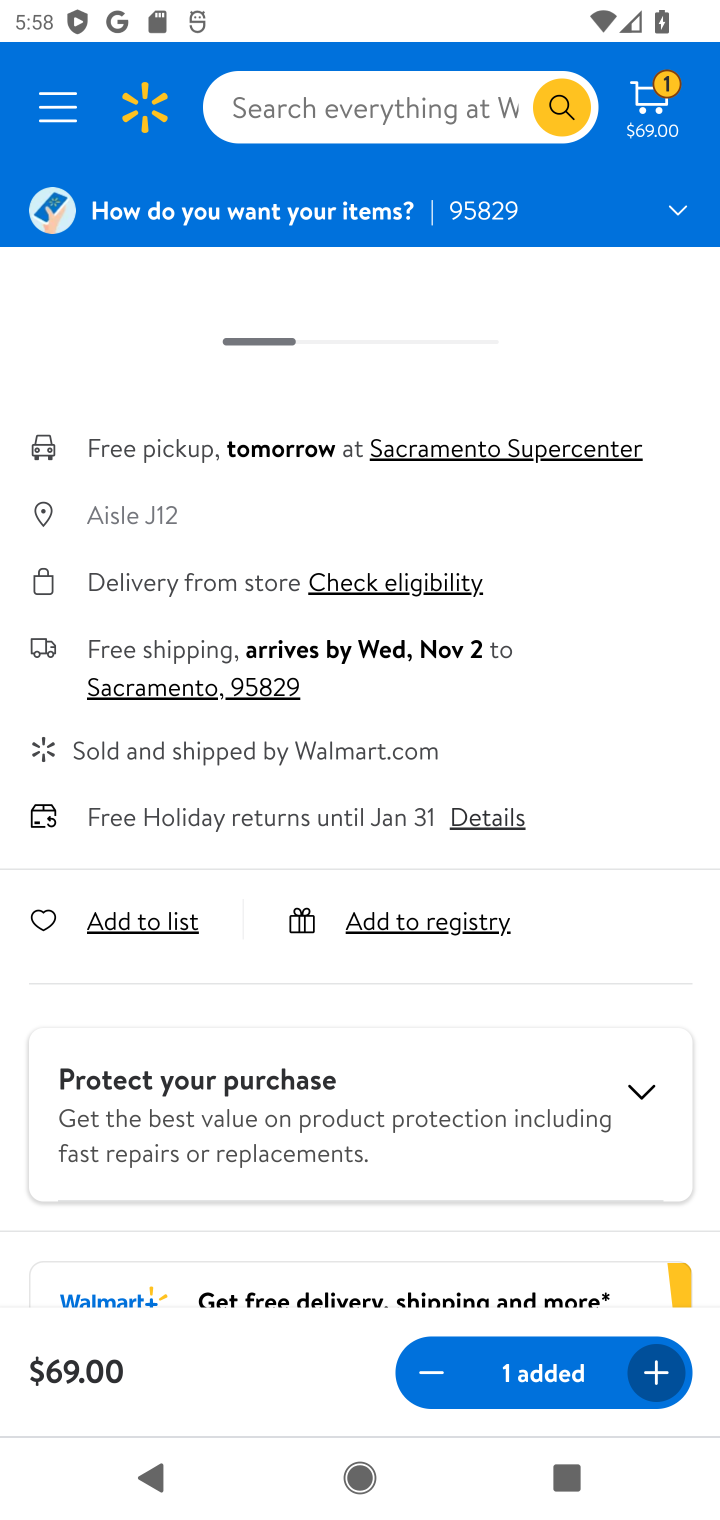
Step 29: drag from (607, 940) to (605, 258)
Your task to perform on an android device: Clear all items from cart on walmart. Search for "razer blackwidow" on walmart, select the first entry, add it to the cart, then select checkout. Image 30: 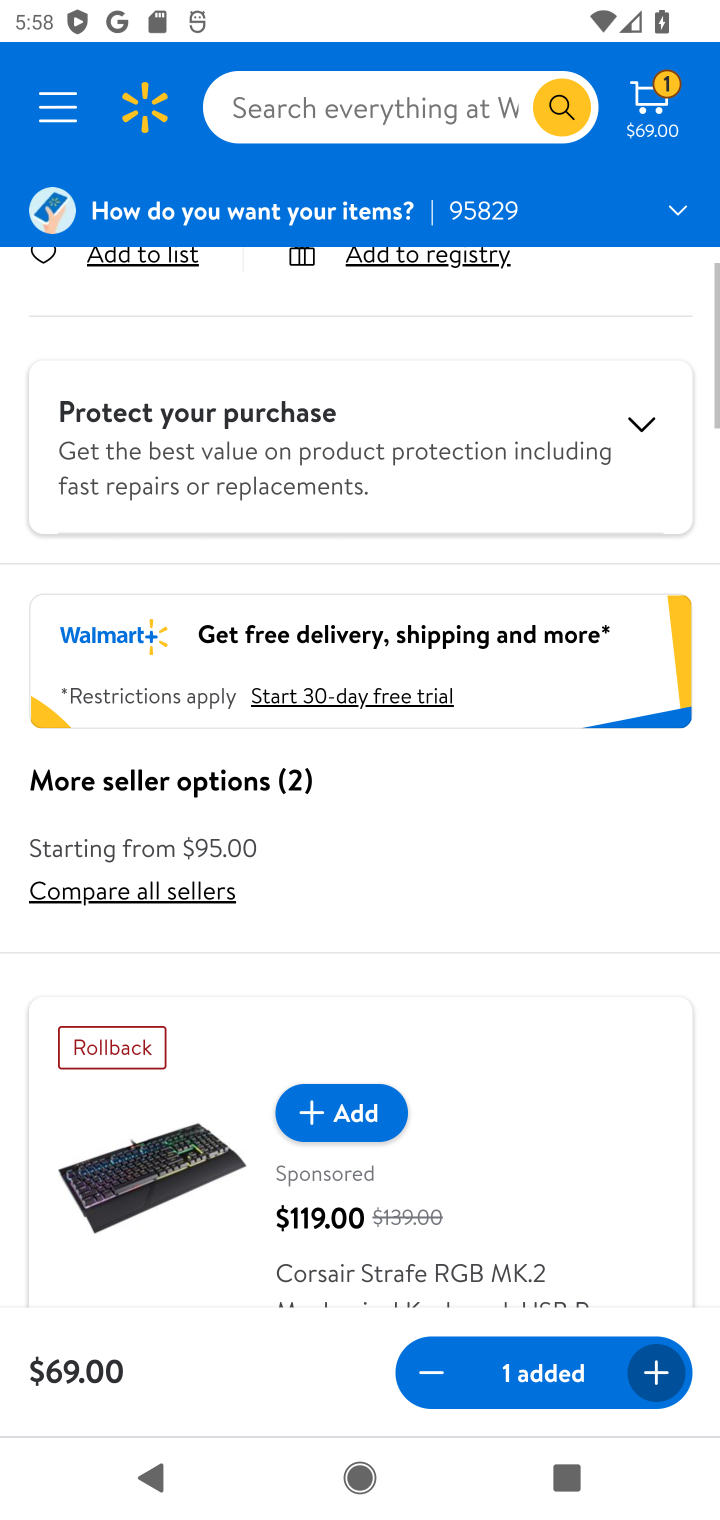
Step 30: click (656, 116)
Your task to perform on an android device: Clear all items from cart on walmart. Search for "razer blackwidow" on walmart, select the first entry, add it to the cart, then select checkout. Image 31: 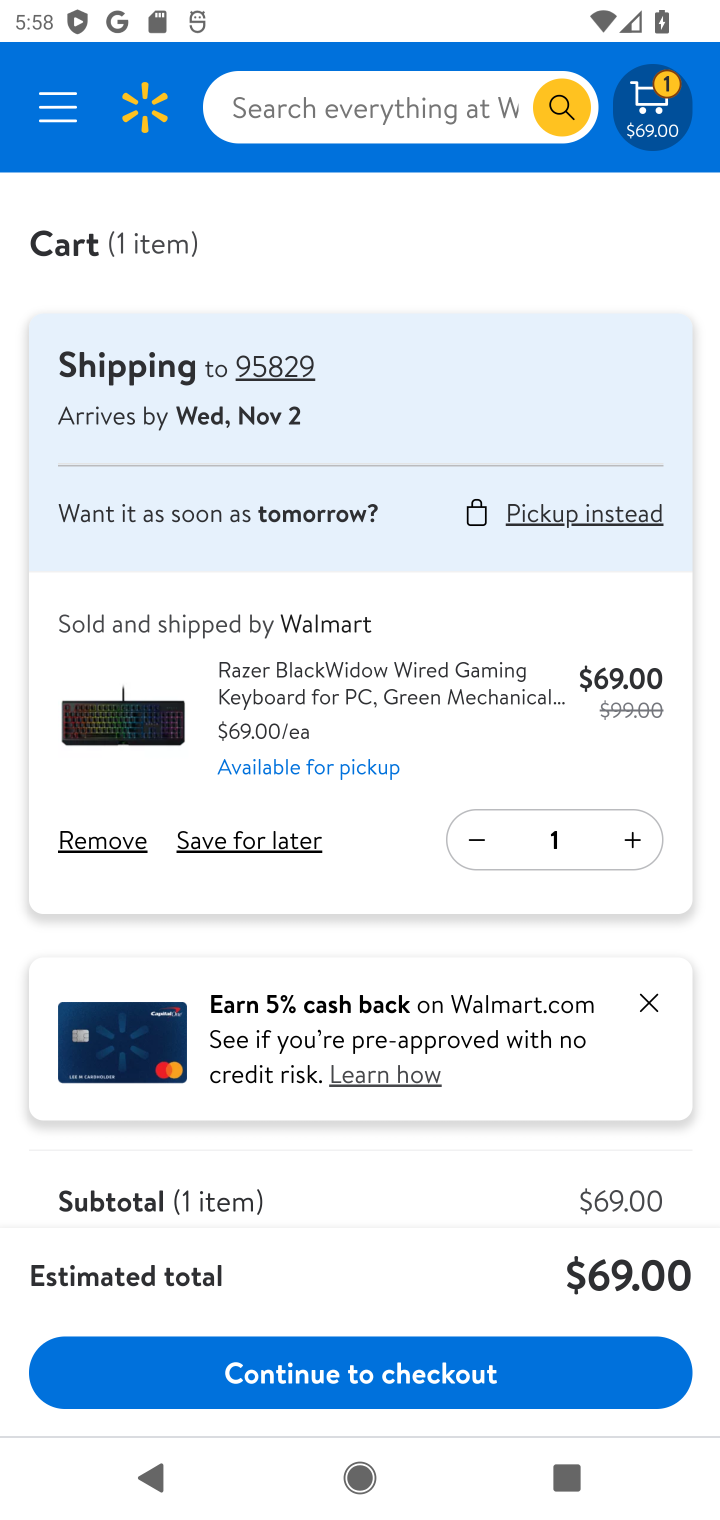
Step 31: click (324, 1361)
Your task to perform on an android device: Clear all items from cart on walmart. Search for "razer blackwidow" on walmart, select the first entry, add it to the cart, then select checkout. Image 32: 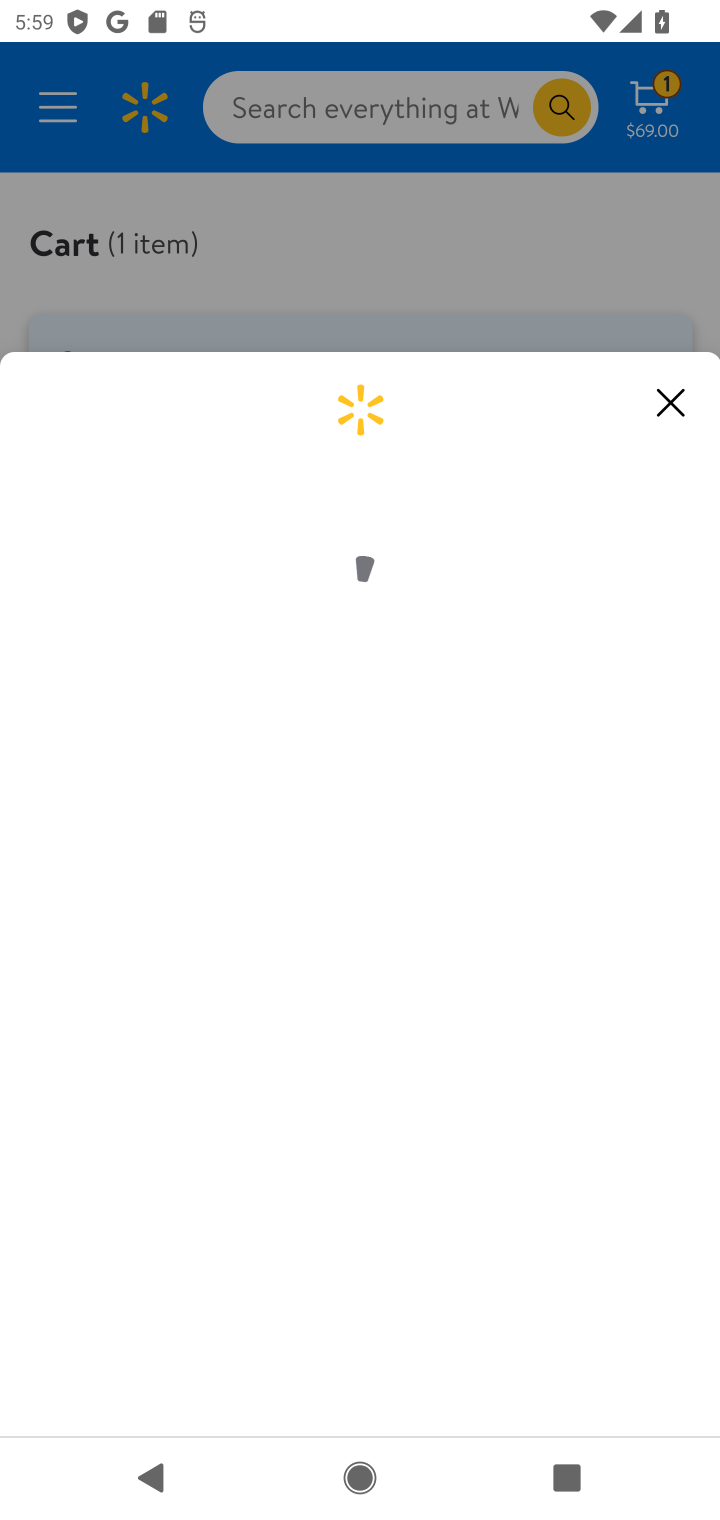
Step 32: click (649, 391)
Your task to perform on an android device: Clear all items from cart on walmart. Search for "razer blackwidow" on walmart, select the first entry, add it to the cart, then select checkout. Image 33: 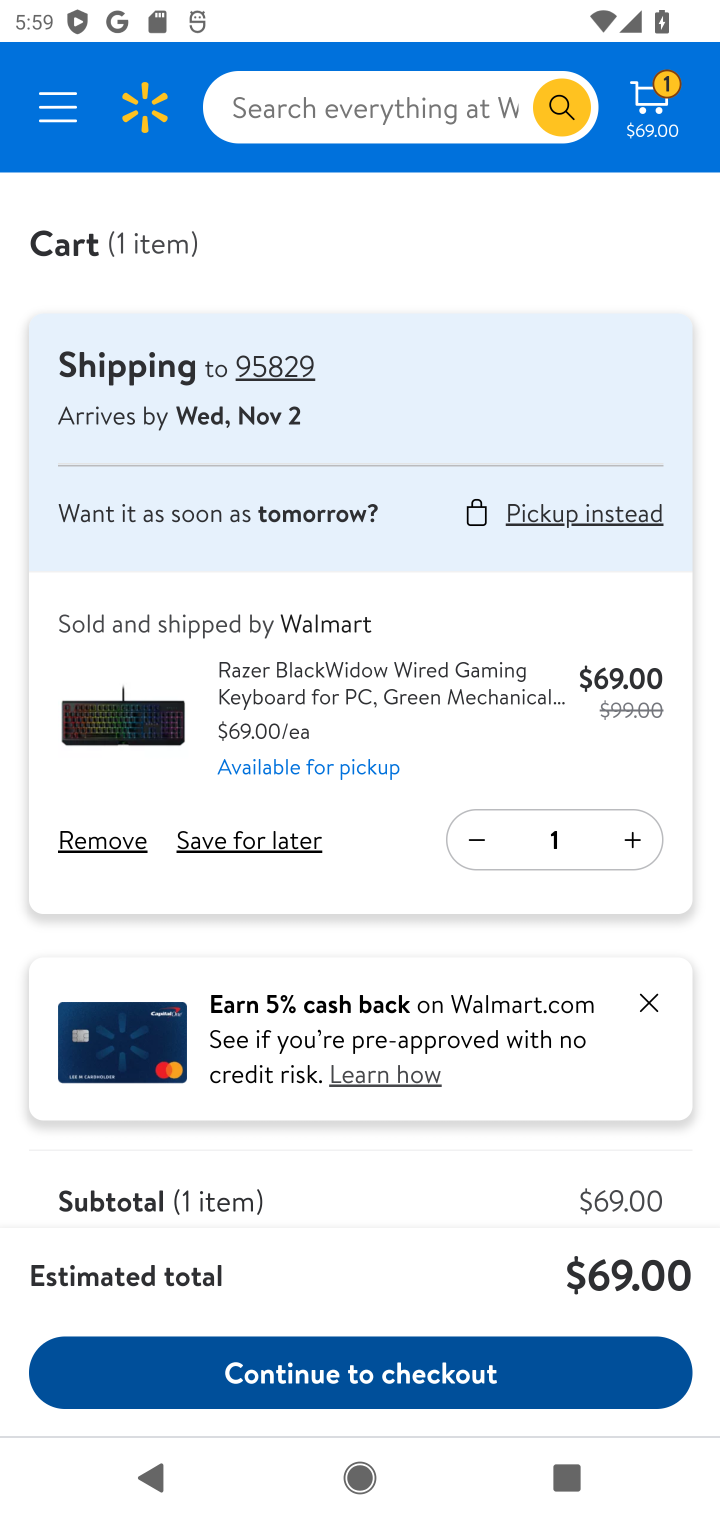
Step 33: click (400, 1388)
Your task to perform on an android device: Clear all items from cart on walmart. Search for "razer blackwidow" on walmart, select the first entry, add it to the cart, then select checkout. Image 34: 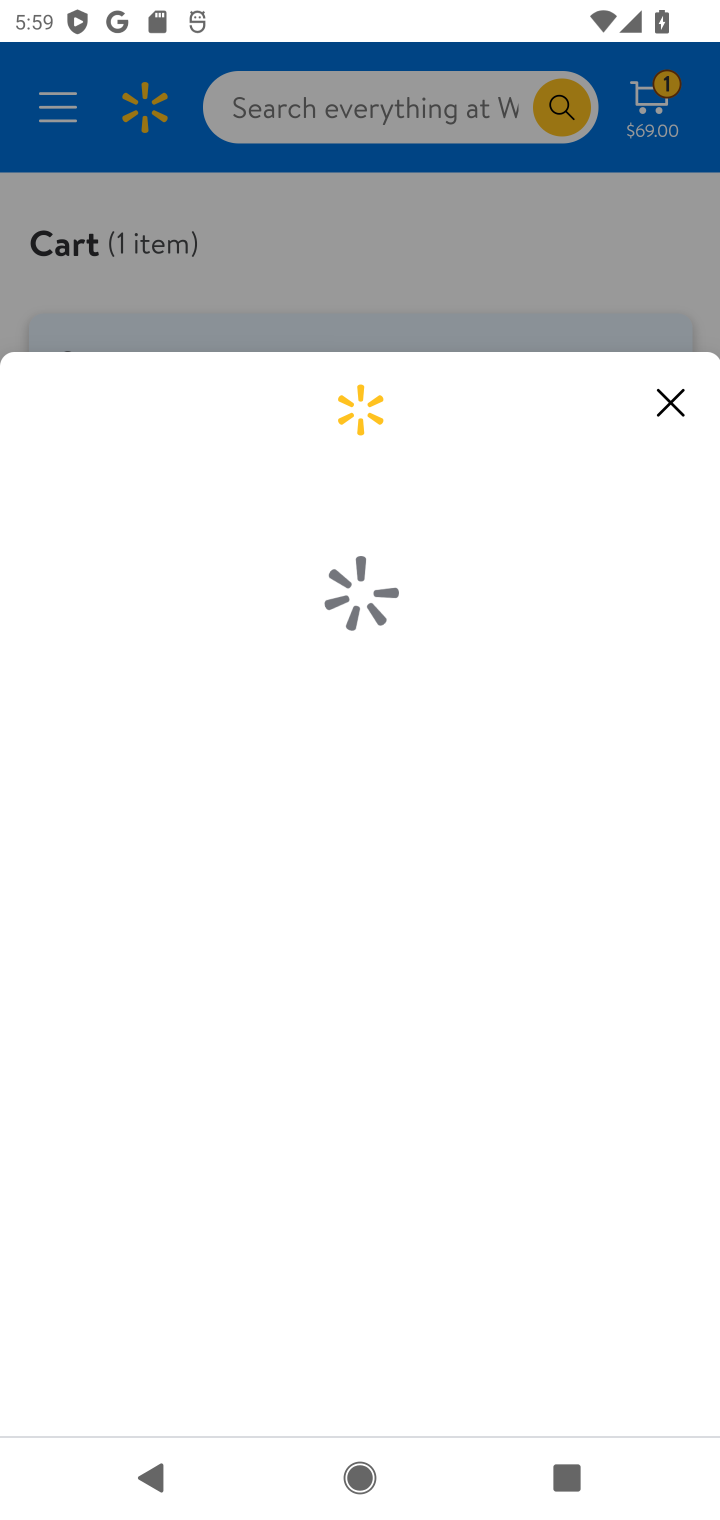
Step 34: click (677, 391)
Your task to perform on an android device: Clear all items from cart on walmart. Search for "razer blackwidow" on walmart, select the first entry, add it to the cart, then select checkout. Image 35: 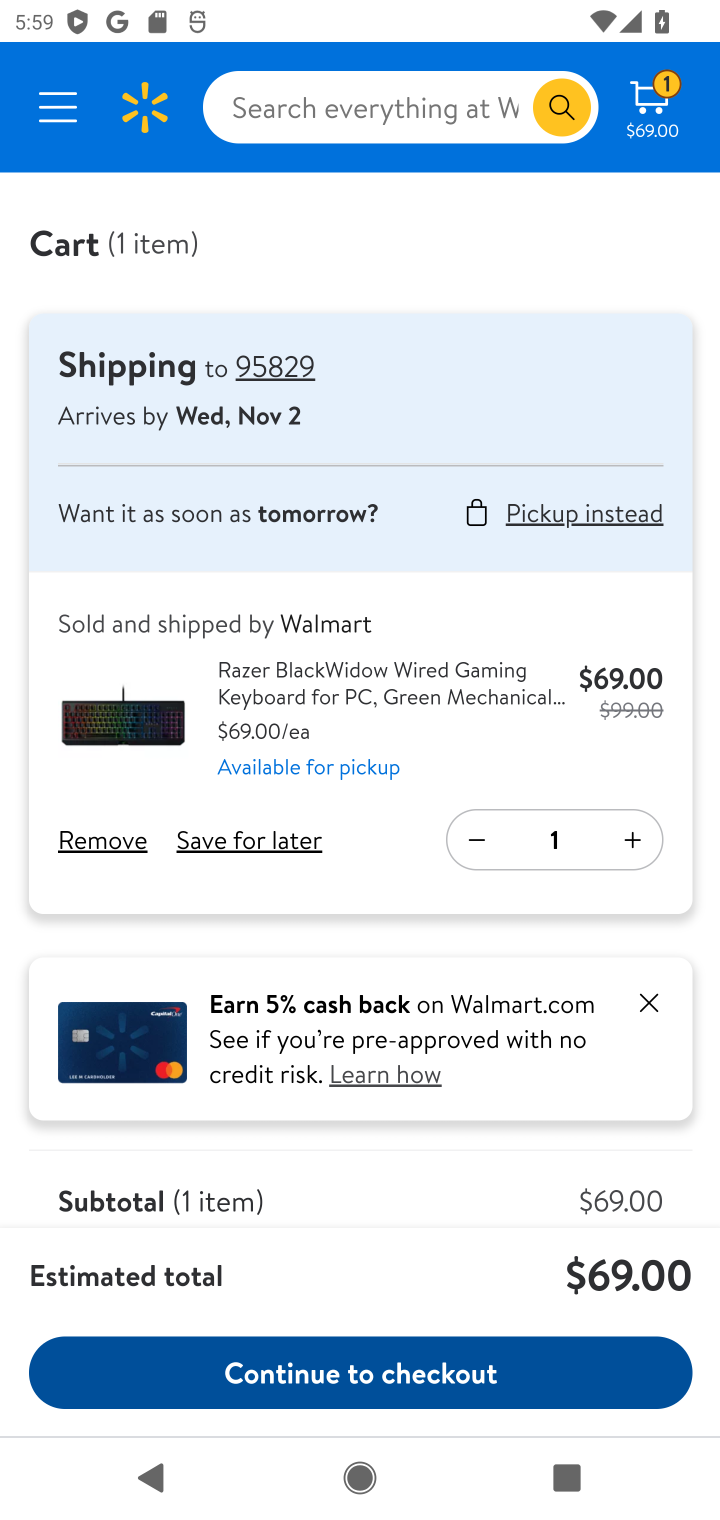
Step 35: task complete